Your task to perform on an android device: Show me productivity apps on the Play Store Image 0: 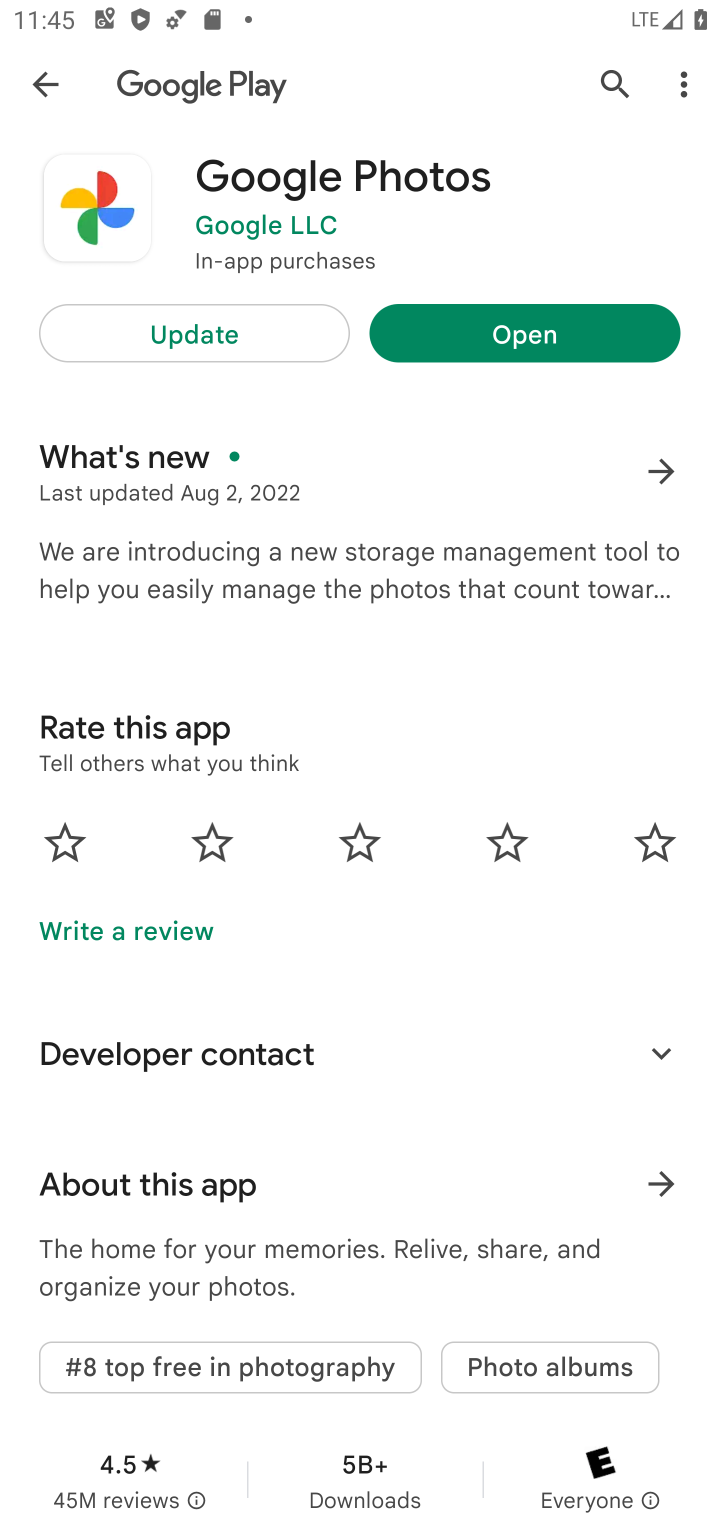
Step 0: press back button
Your task to perform on an android device: Show me productivity apps on the Play Store Image 1: 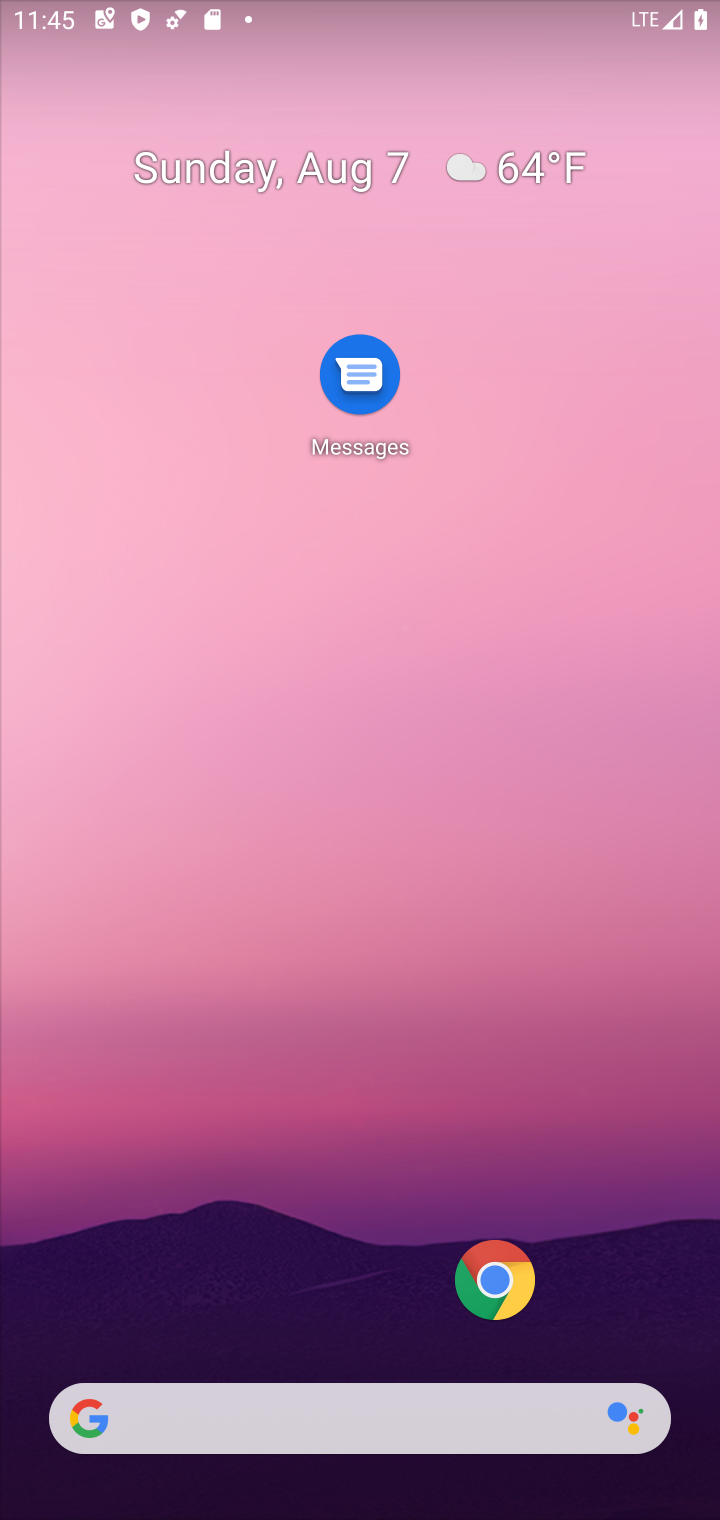
Step 1: drag from (317, 1342) to (470, 106)
Your task to perform on an android device: Show me productivity apps on the Play Store Image 2: 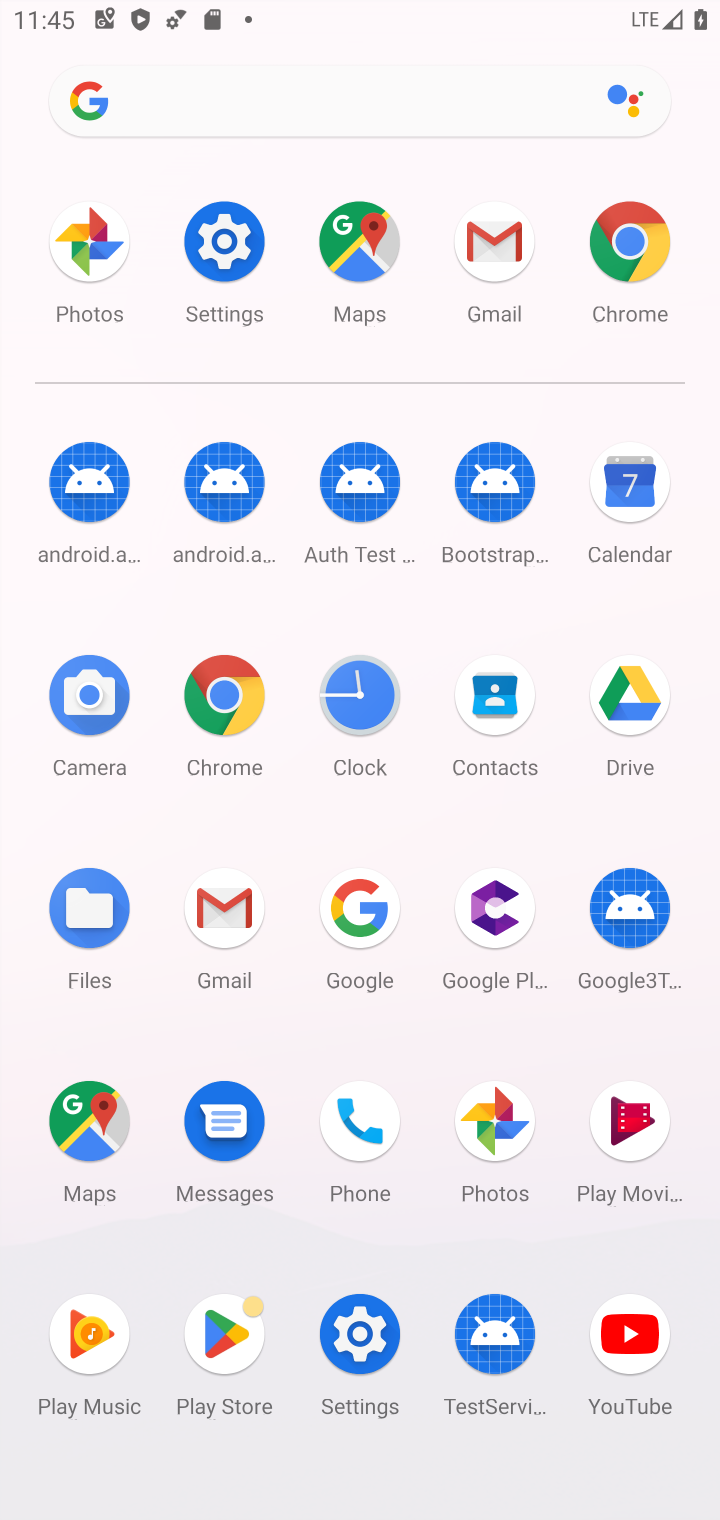
Step 2: click (236, 1356)
Your task to perform on an android device: Show me productivity apps on the Play Store Image 3: 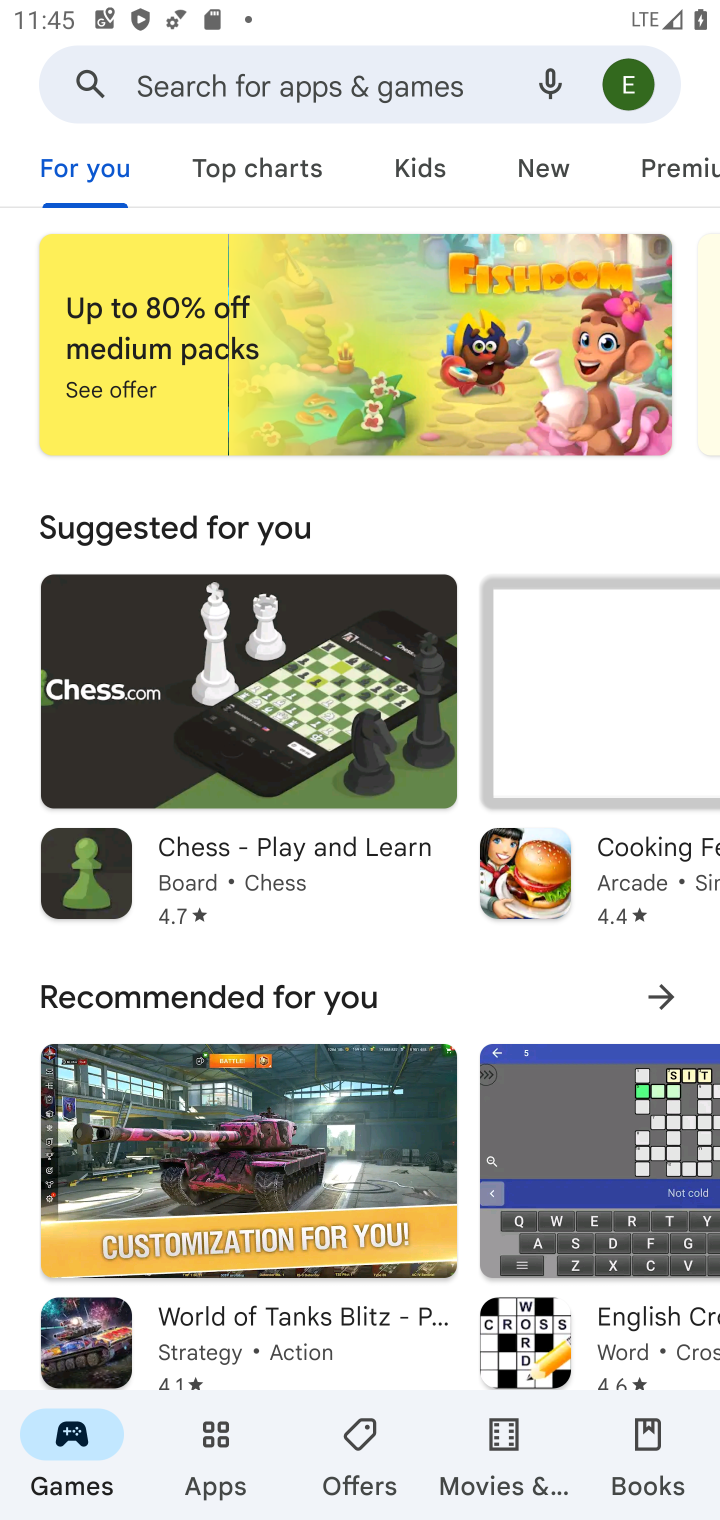
Step 3: click (226, 1433)
Your task to perform on an android device: Show me productivity apps on the Play Store Image 4: 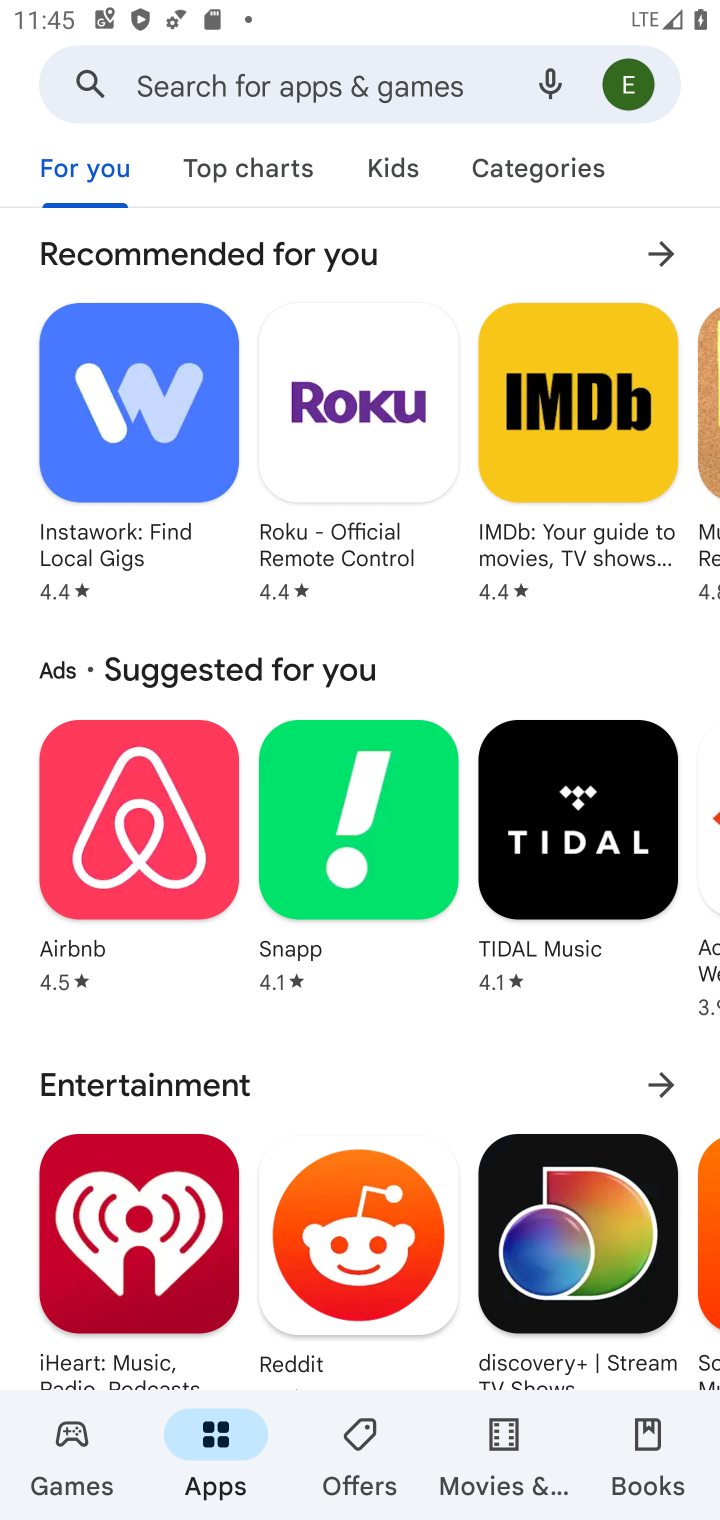
Step 4: drag from (521, 467) to (338, 501)
Your task to perform on an android device: Show me productivity apps on the Play Store Image 5: 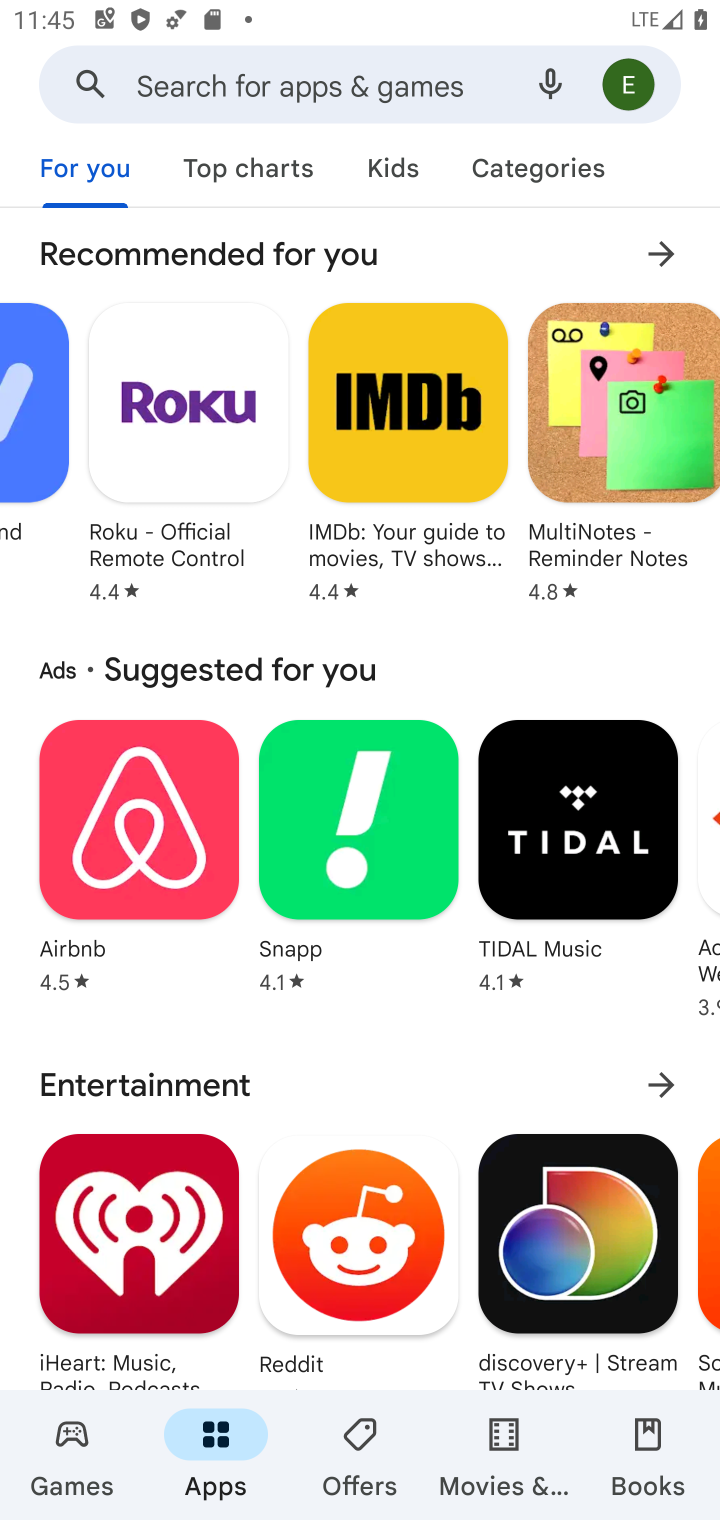
Step 5: drag from (326, 1108) to (510, 254)
Your task to perform on an android device: Show me productivity apps on the Play Store Image 6: 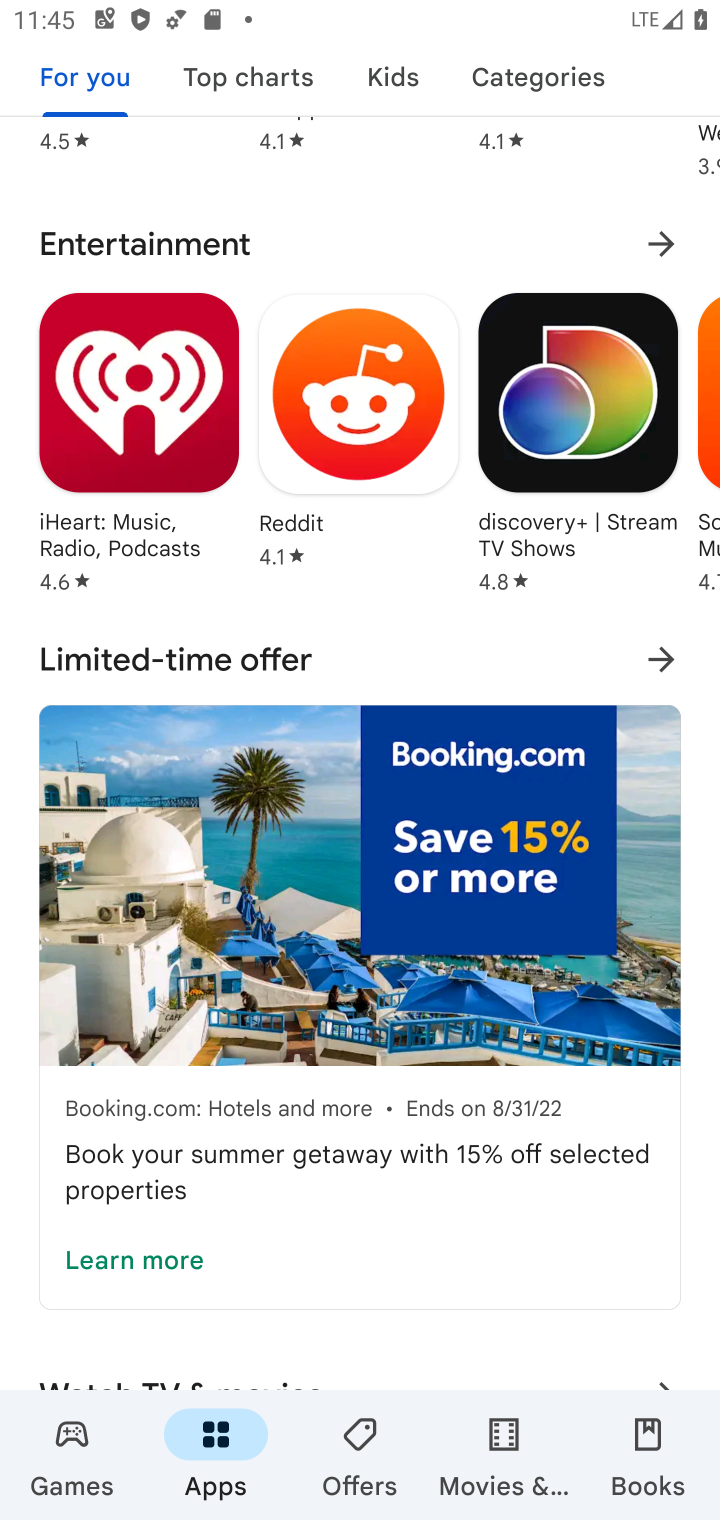
Step 6: drag from (198, 1271) to (359, 1387)
Your task to perform on an android device: Show me productivity apps on the Play Store Image 7: 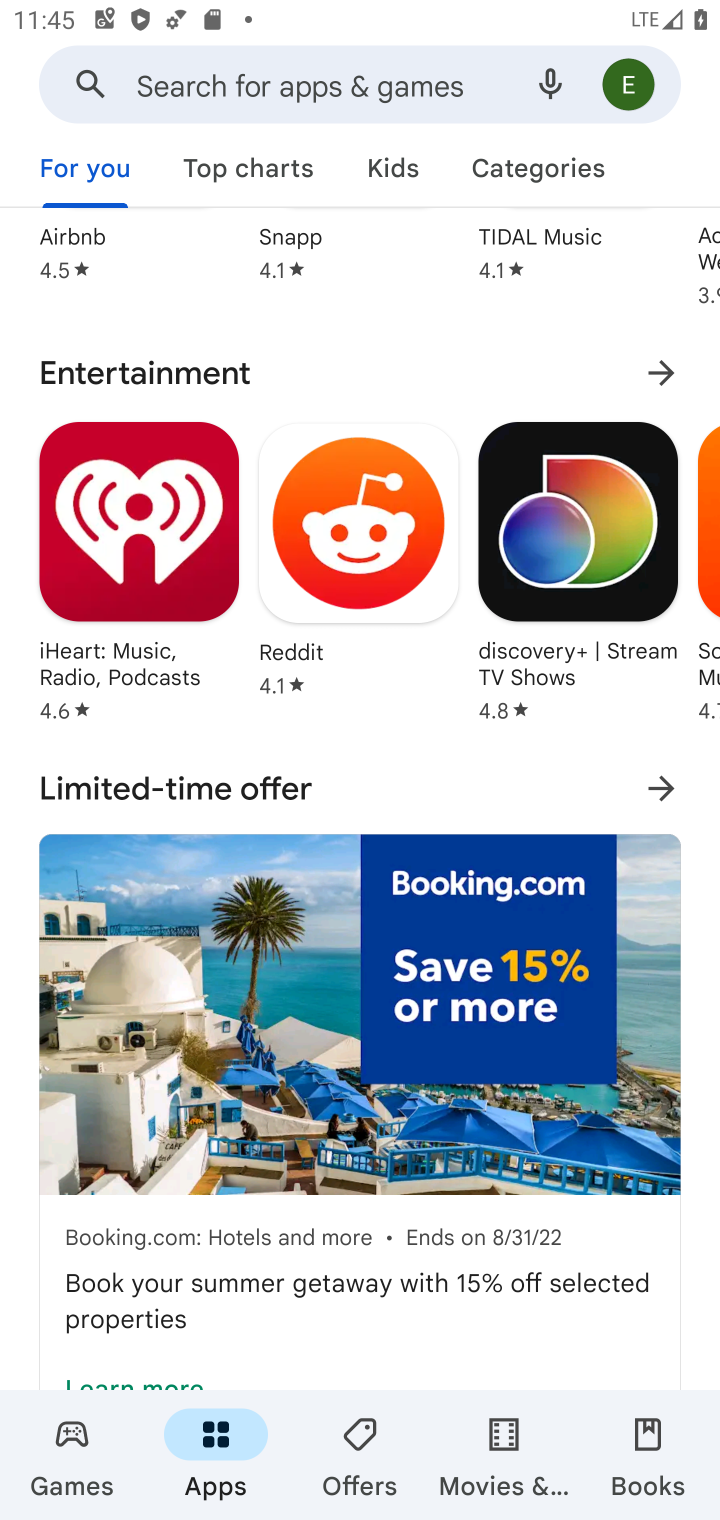
Step 7: drag from (354, 785) to (282, 1373)
Your task to perform on an android device: Show me productivity apps on the Play Store Image 8: 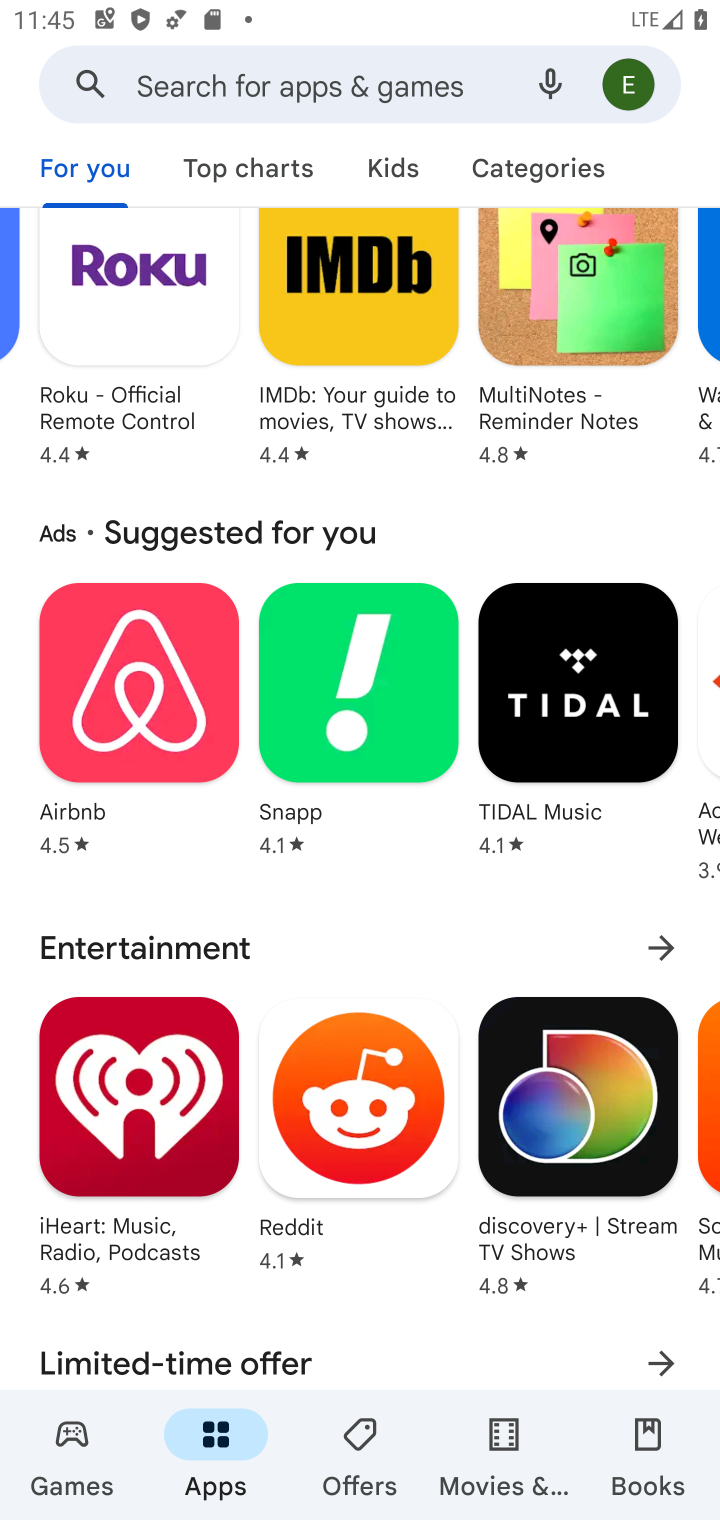
Step 8: drag from (277, 532) to (260, 1359)
Your task to perform on an android device: Show me productivity apps on the Play Store Image 9: 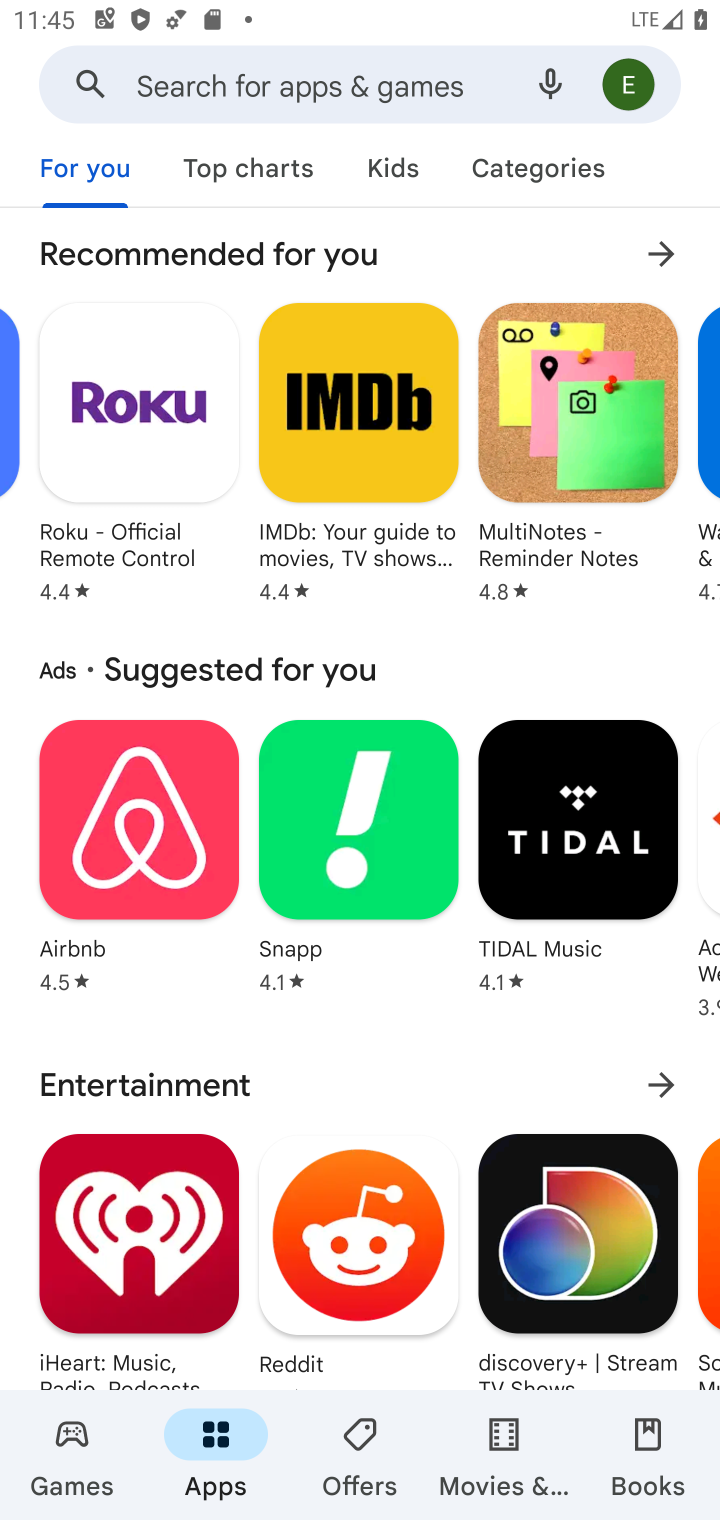
Step 9: drag from (321, 768) to (514, 395)
Your task to perform on an android device: Show me productivity apps on the Play Store Image 10: 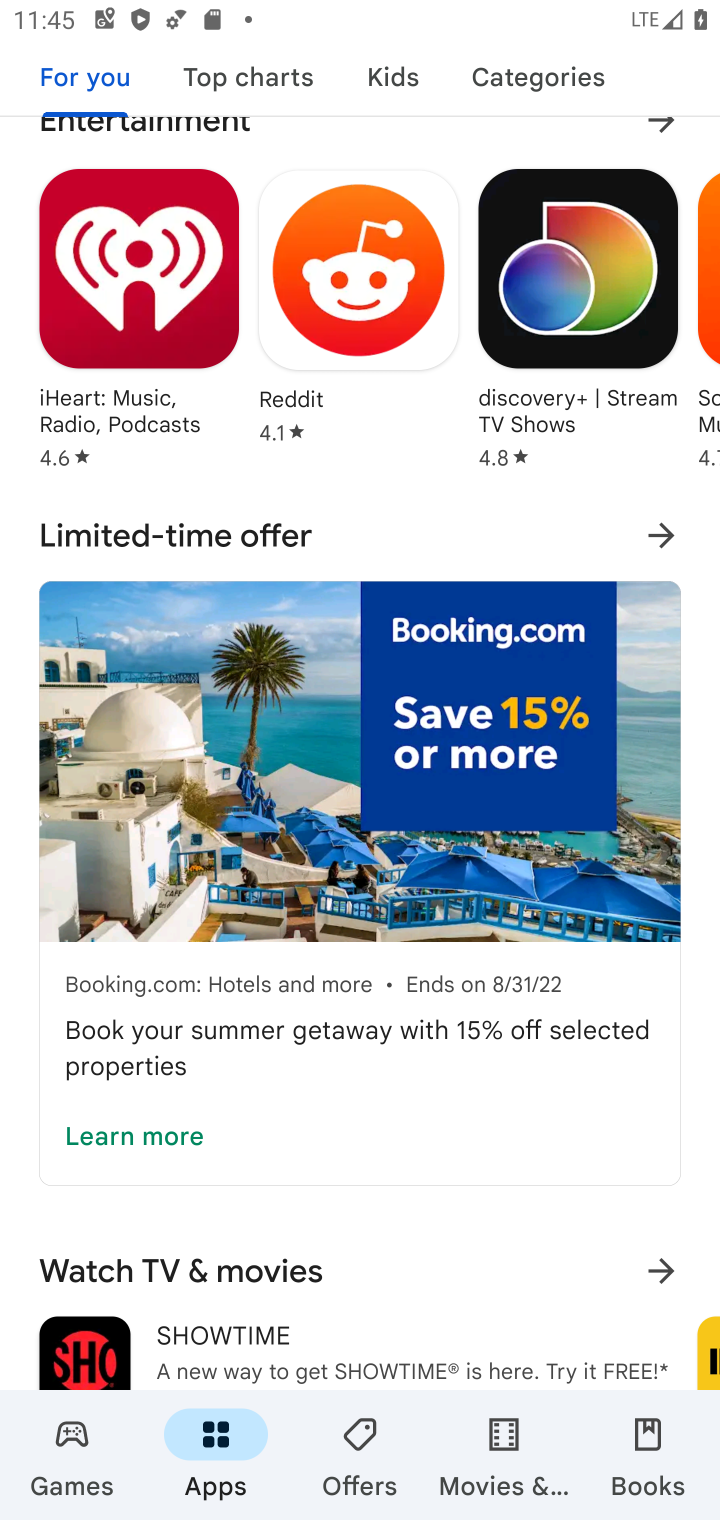
Step 10: click (616, 60)
Your task to perform on an android device: Show me productivity apps on the Play Store Image 11: 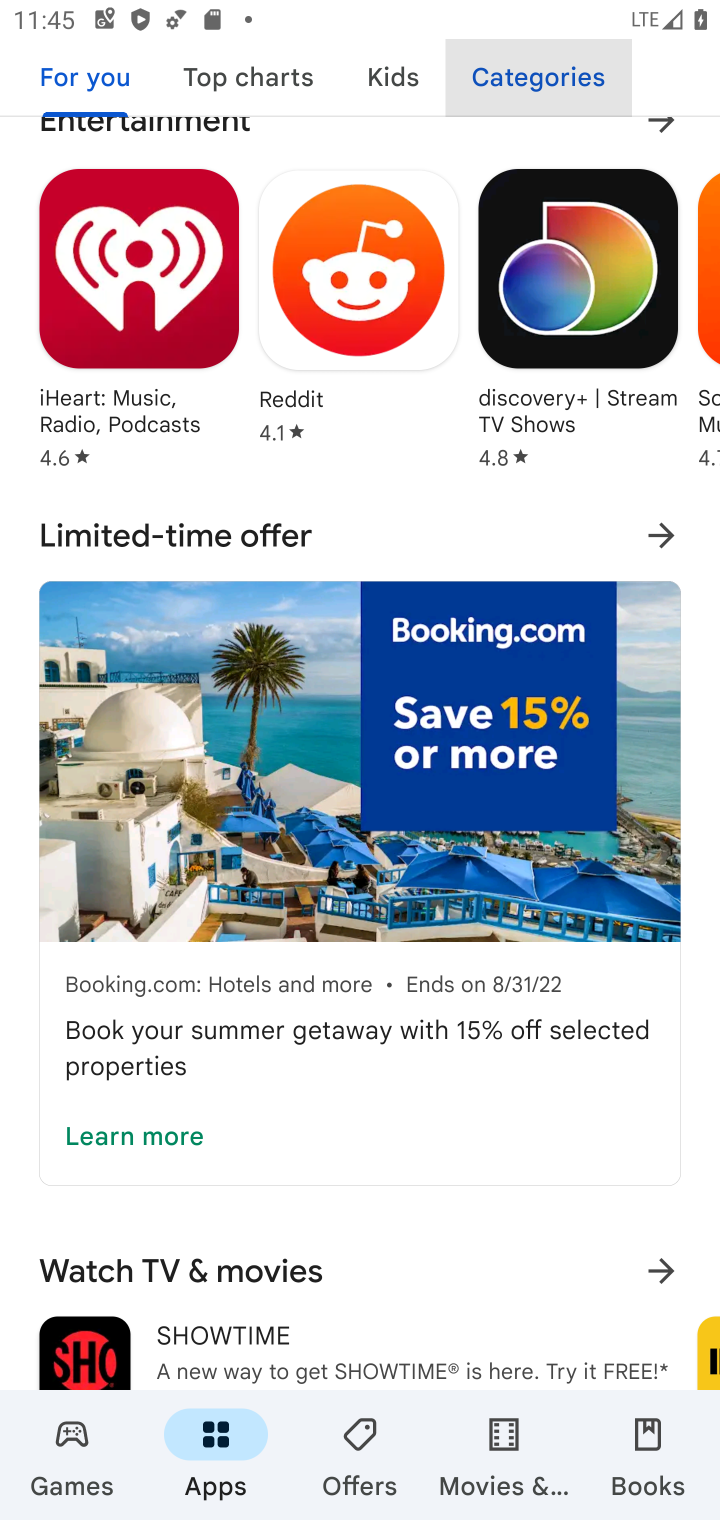
Step 11: drag from (377, 1310) to (544, 103)
Your task to perform on an android device: Show me productivity apps on the Play Store Image 12: 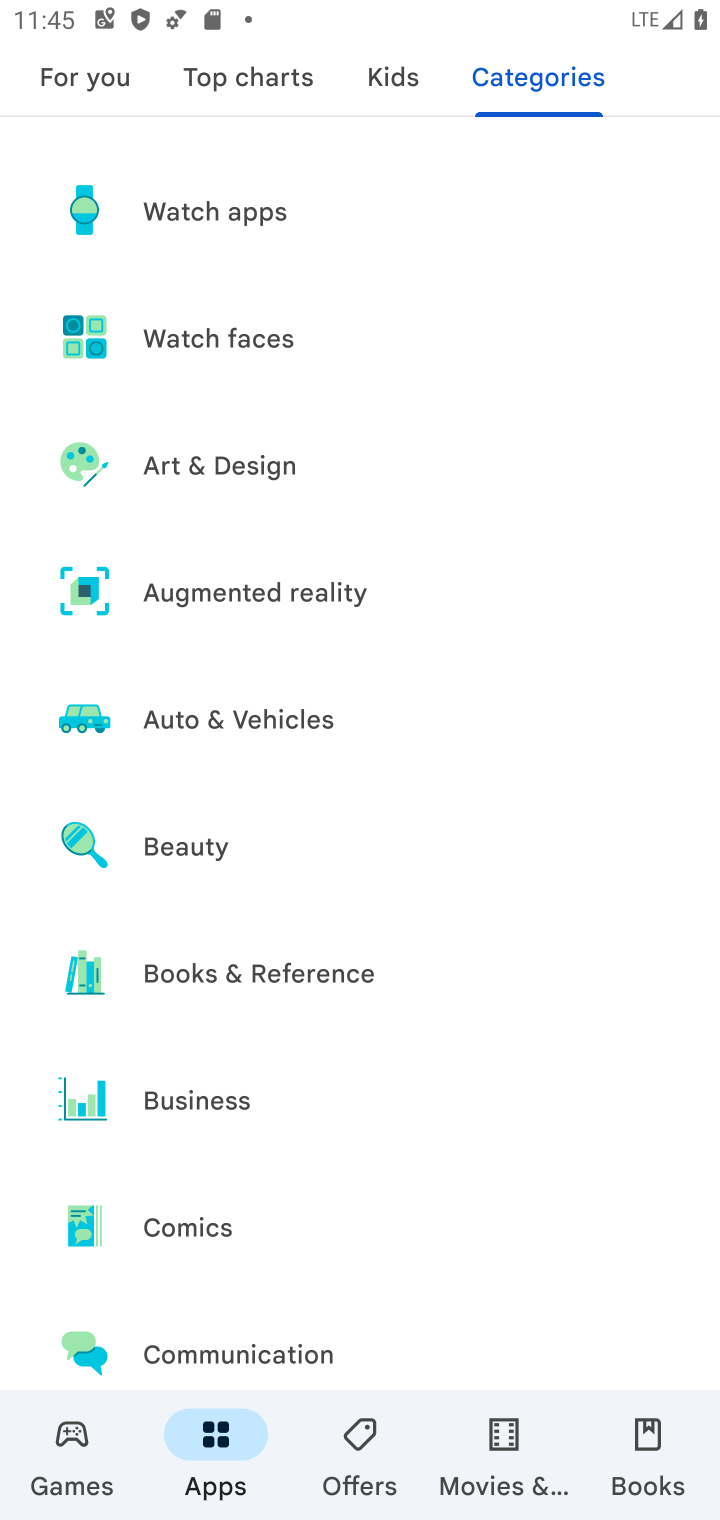
Step 12: click (104, 1473)
Your task to perform on an android device: Show me productivity apps on the Play Store Image 13: 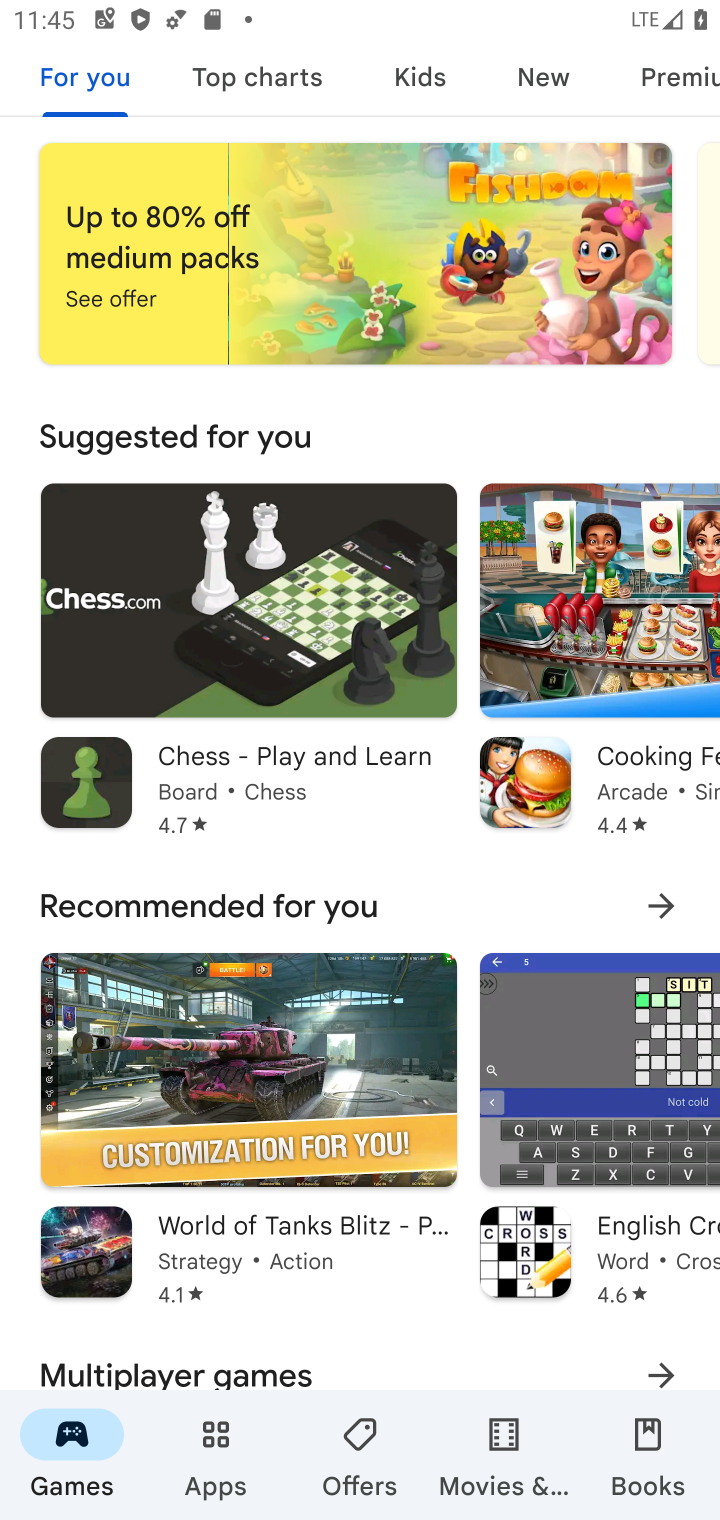
Step 13: drag from (461, 900) to (632, 183)
Your task to perform on an android device: Show me productivity apps on the Play Store Image 14: 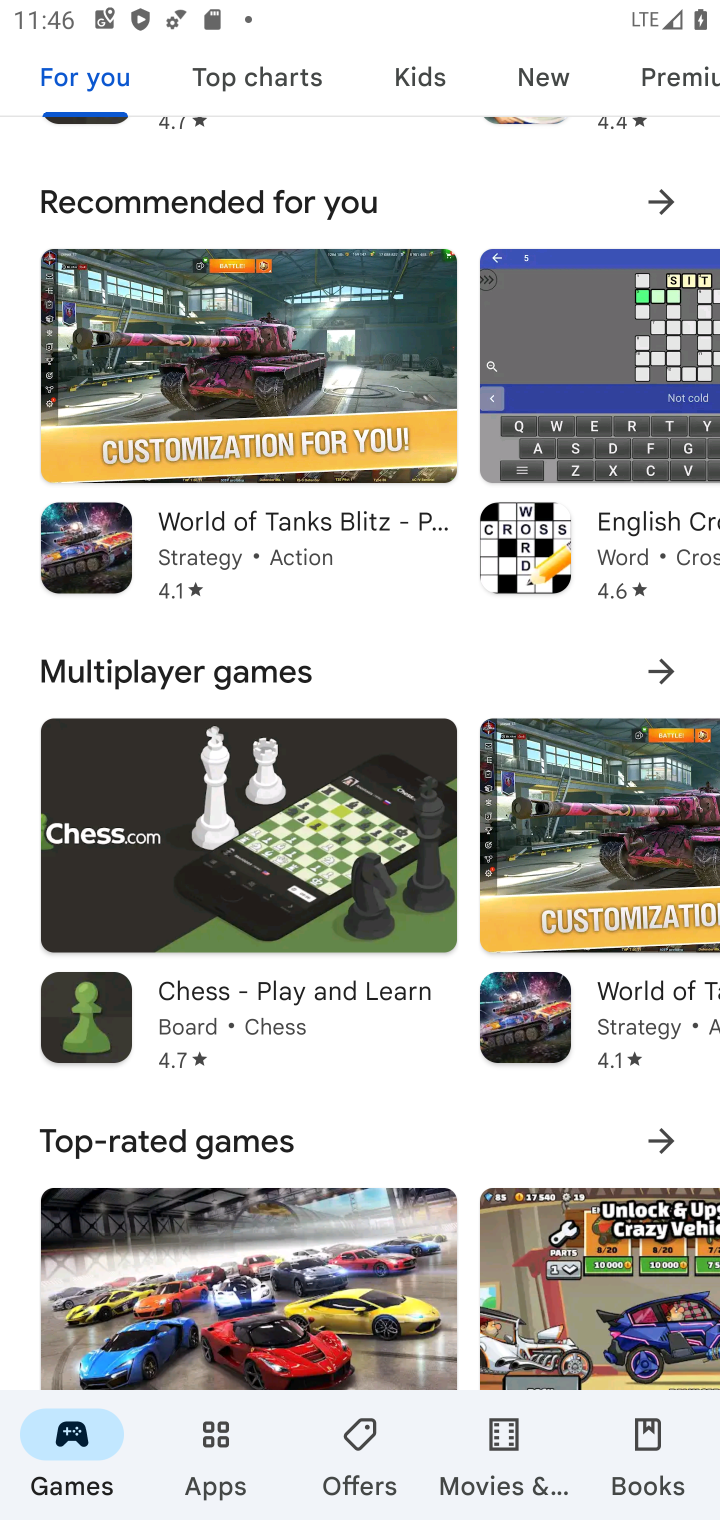
Step 14: drag from (352, 1185) to (421, 129)
Your task to perform on an android device: Show me productivity apps on the Play Store Image 15: 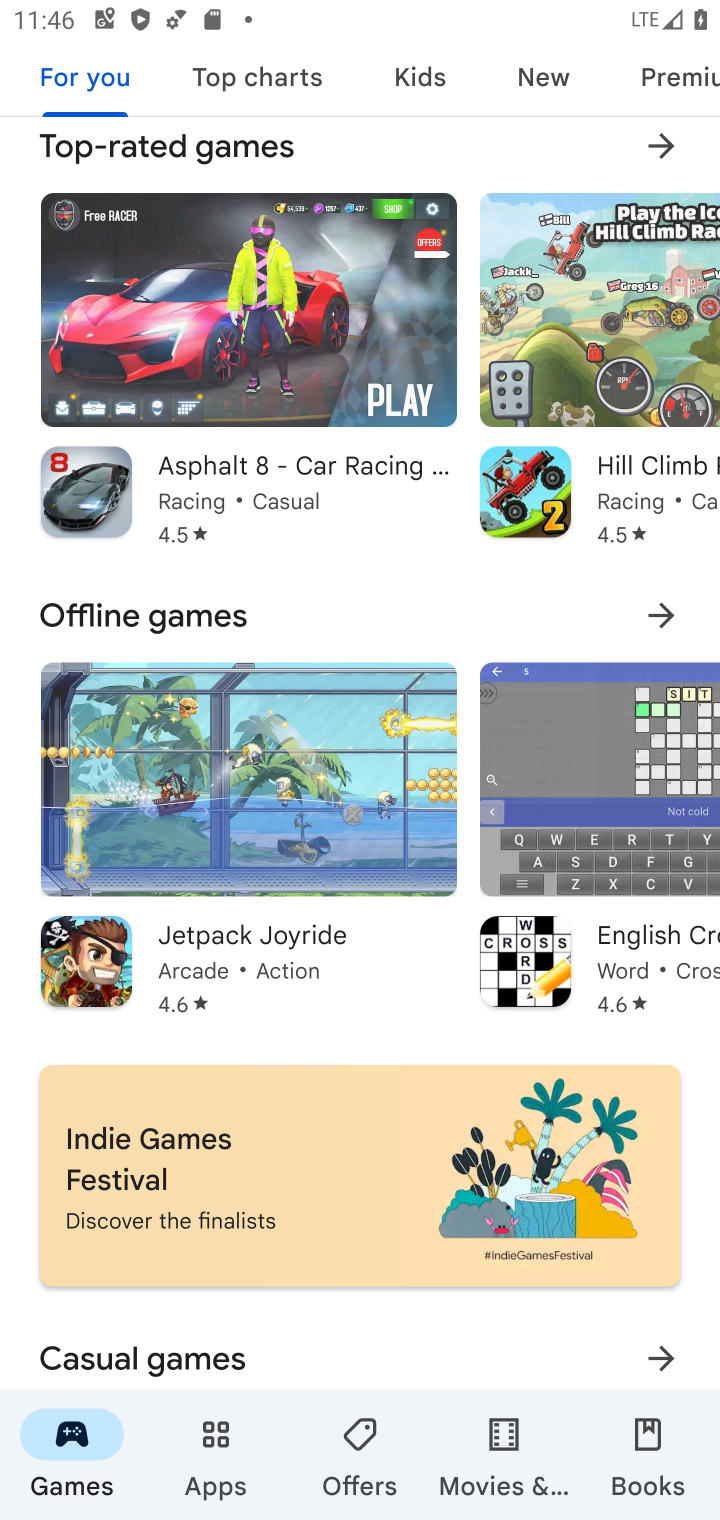
Step 15: drag from (429, 1188) to (609, 137)
Your task to perform on an android device: Show me productivity apps on the Play Store Image 16: 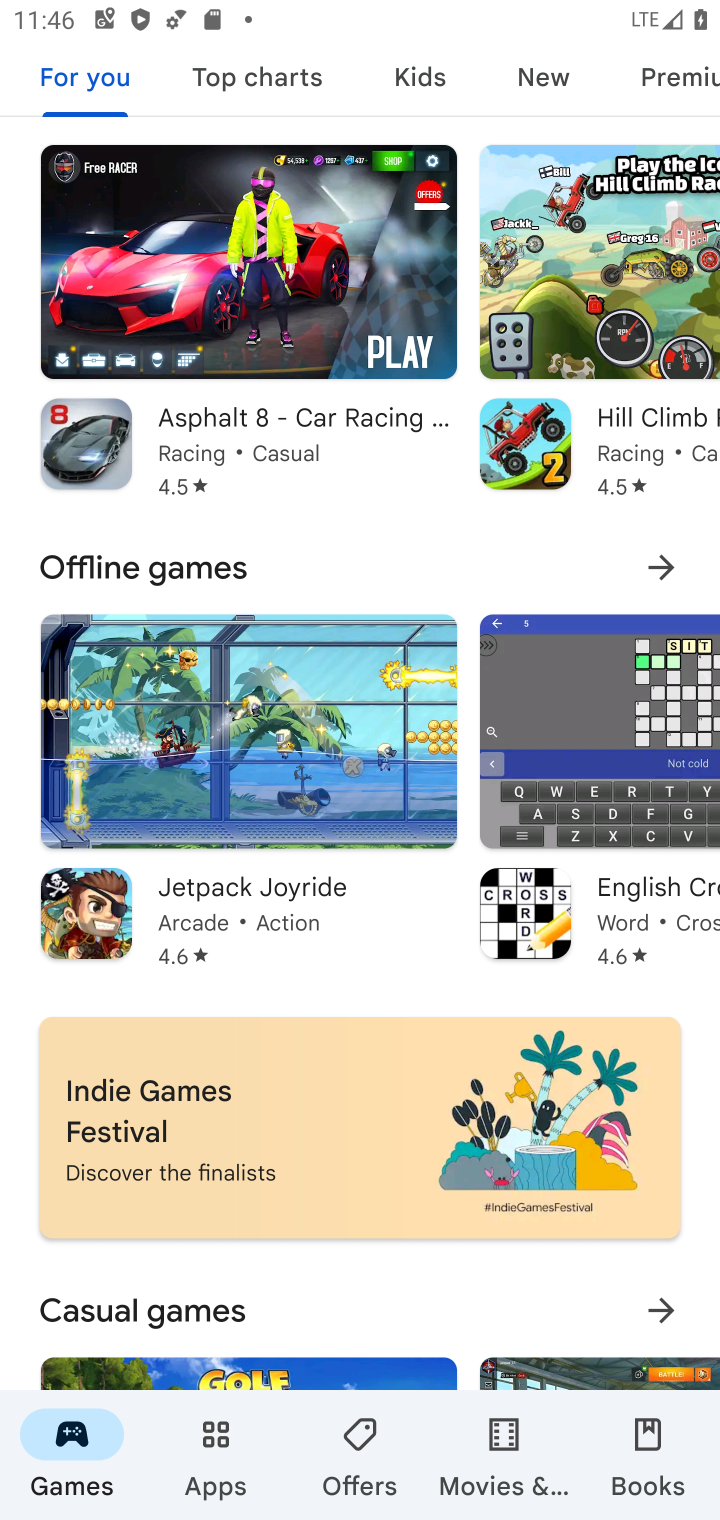
Step 16: drag from (423, 1305) to (558, 167)
Your task to perform on an android device: Show me productivity apps on the Play Store Image 17: 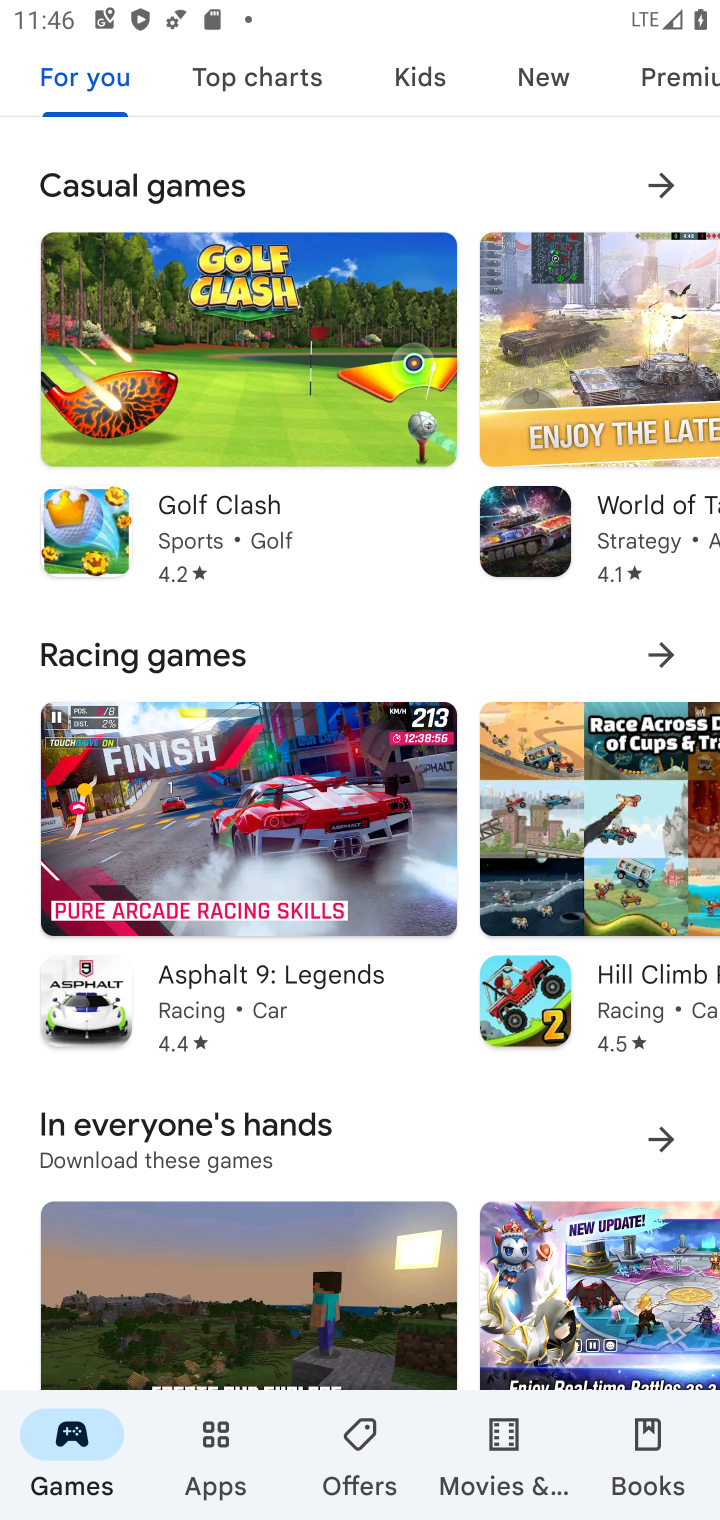
Step 17: click (187, 1517)
Your task to perform on an android device: Show me productivity apps on the Play Store Image 18: 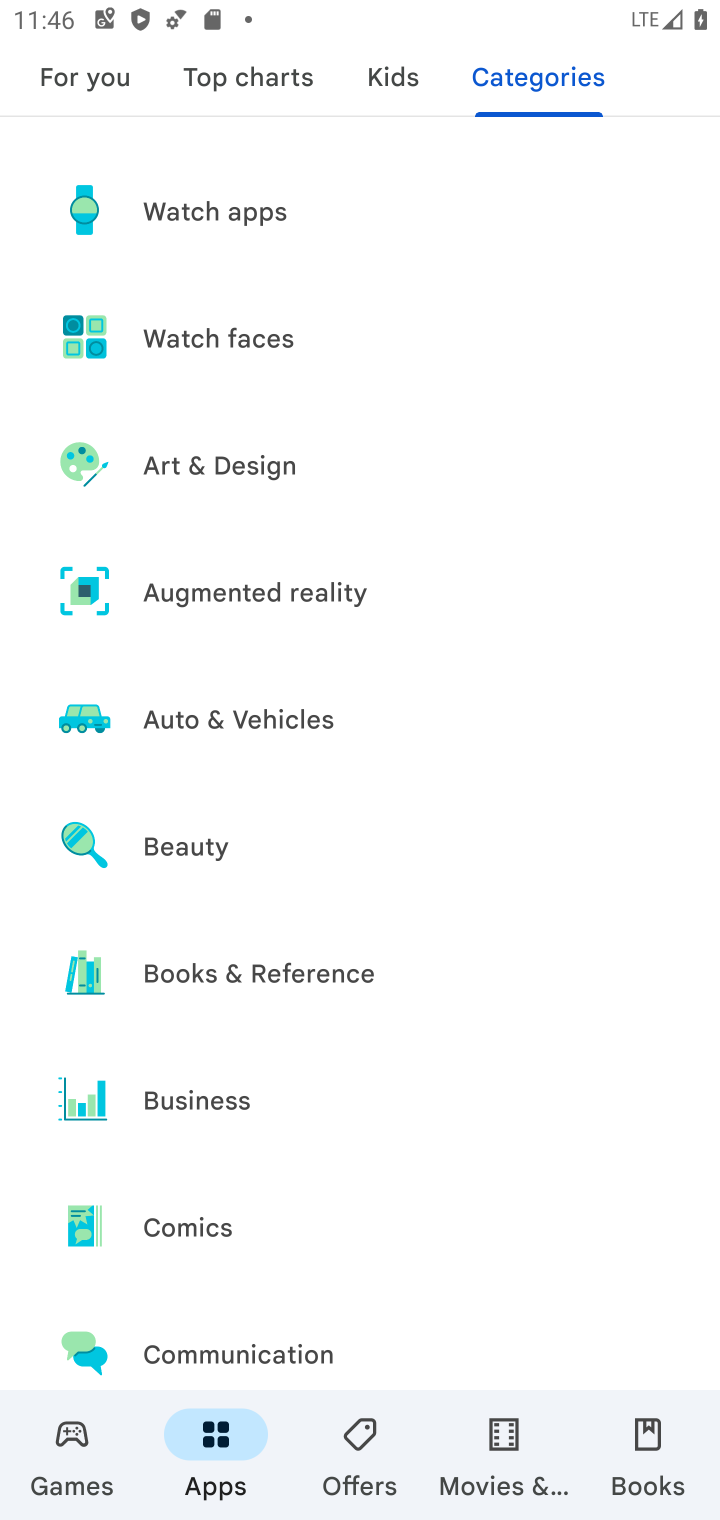
Step 18: click (206, 1478)
Your task to perform on an android device: Show me productivity apps on the Play Store Image 19: 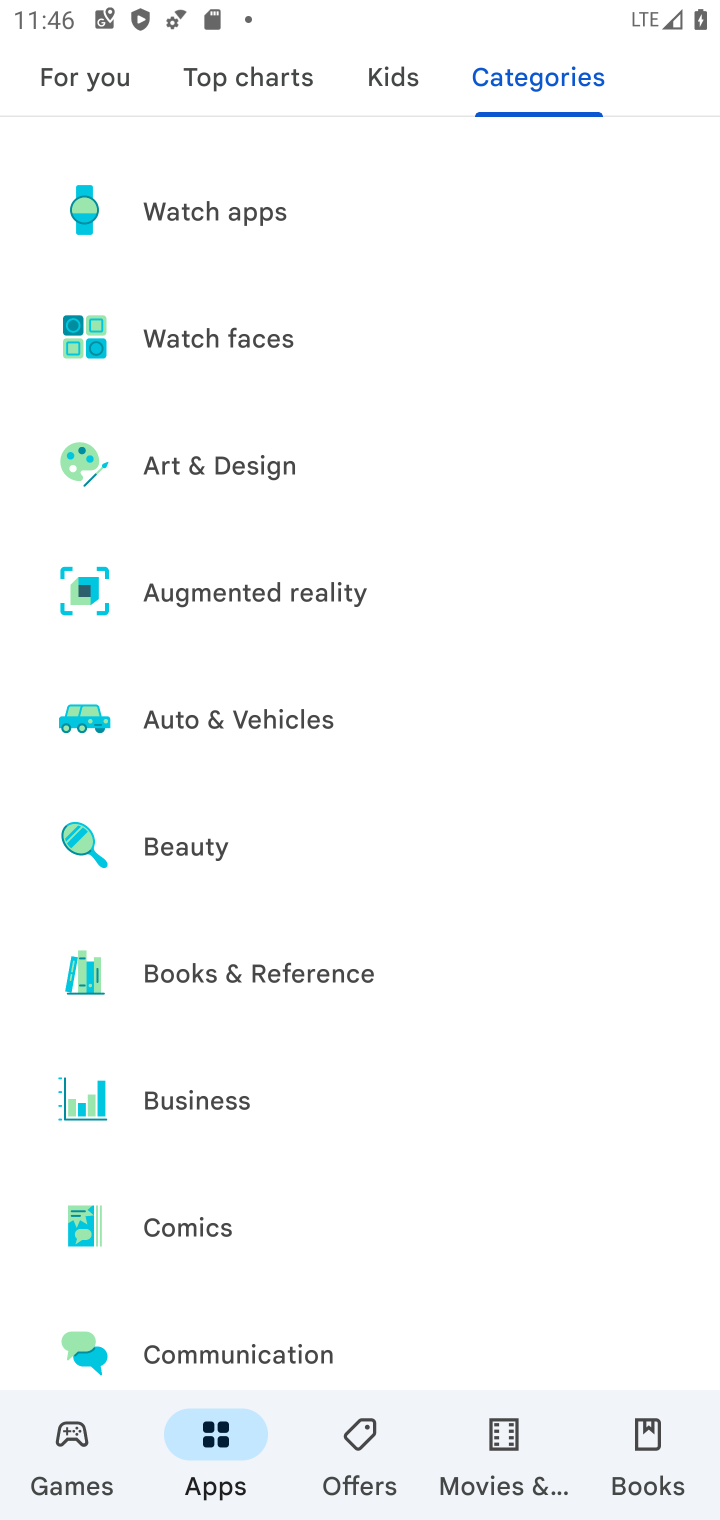
Step 19: drag from (351, 1278) to (534, 192)
Your task to perform on an android device: Show me productivity apps on the Play Store Image 20: 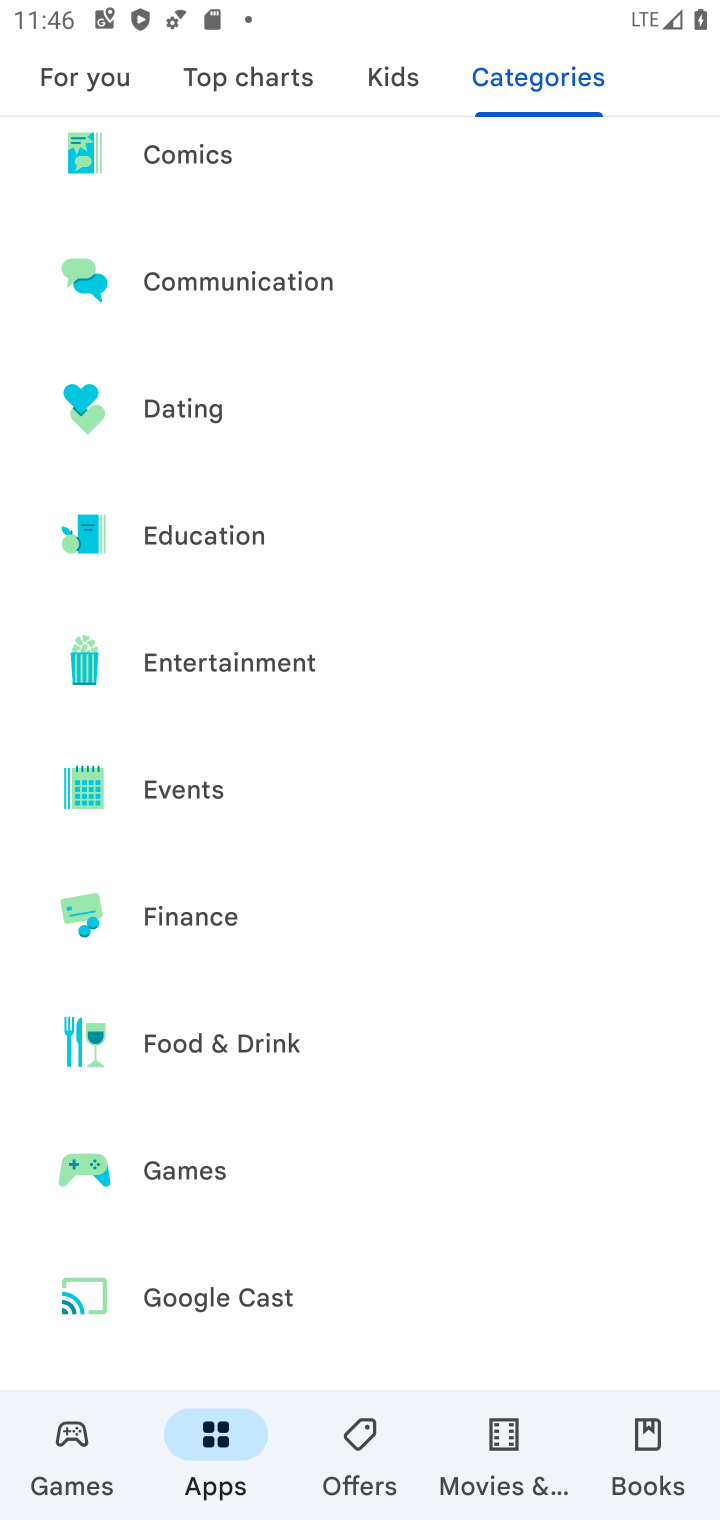
Step 20: click (211, 1453)
Your task to perform on an android device: Show me productivity apps on the Play Store Image 21: 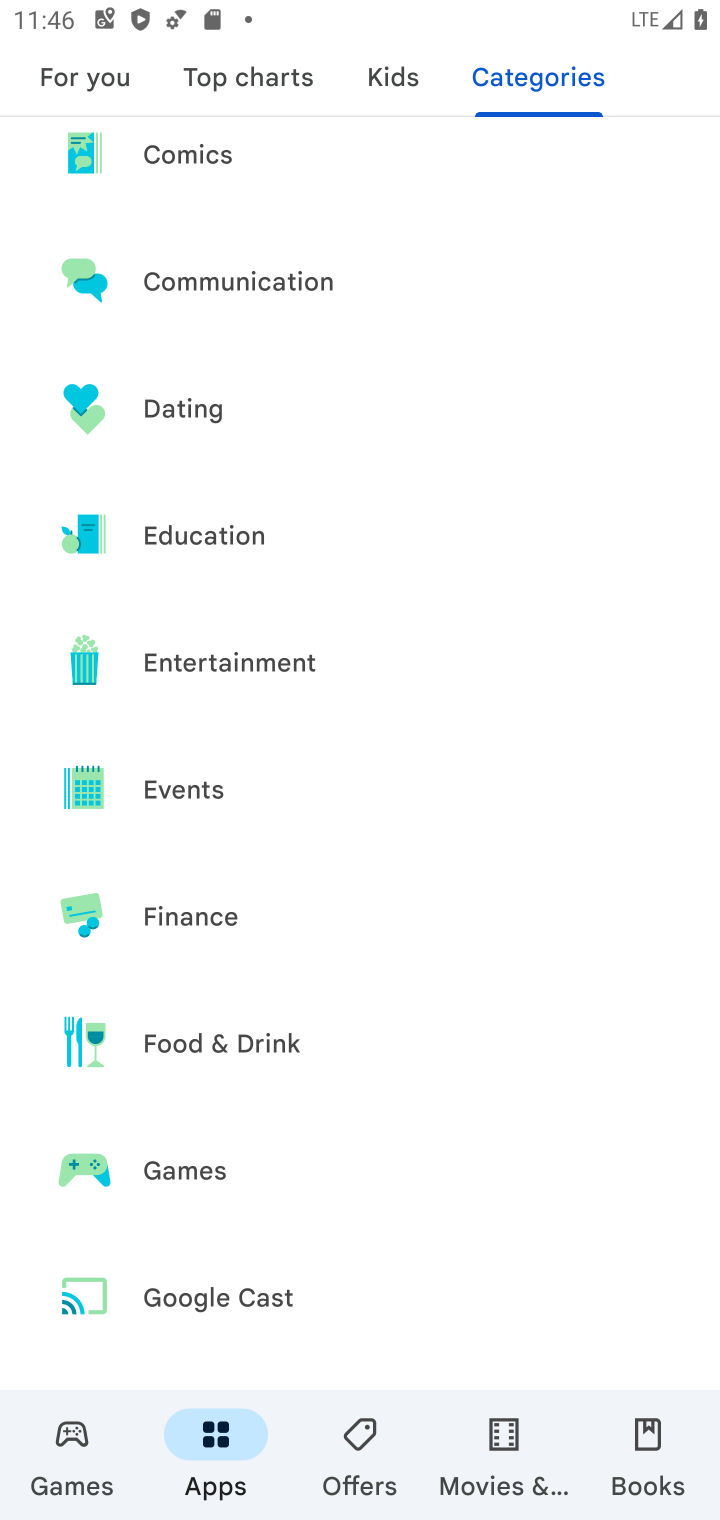
Step 21: click (70, 1459)
Your task to perform on an android device: Show me productivity apps on the Play Store Image 22: 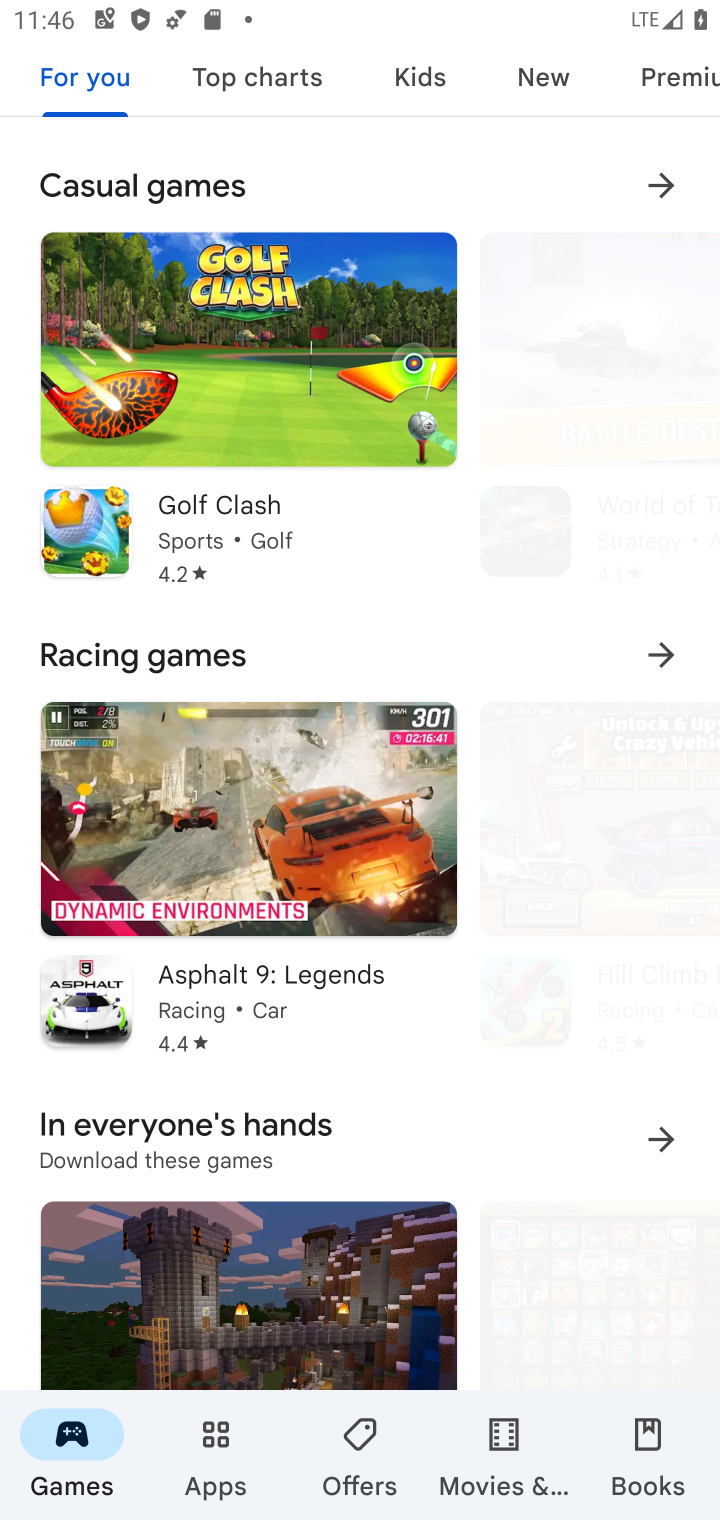
Step 22: click (207, 1462)
Your task to perform on an android device: Show me productivity apps on the Play Store Image 23: 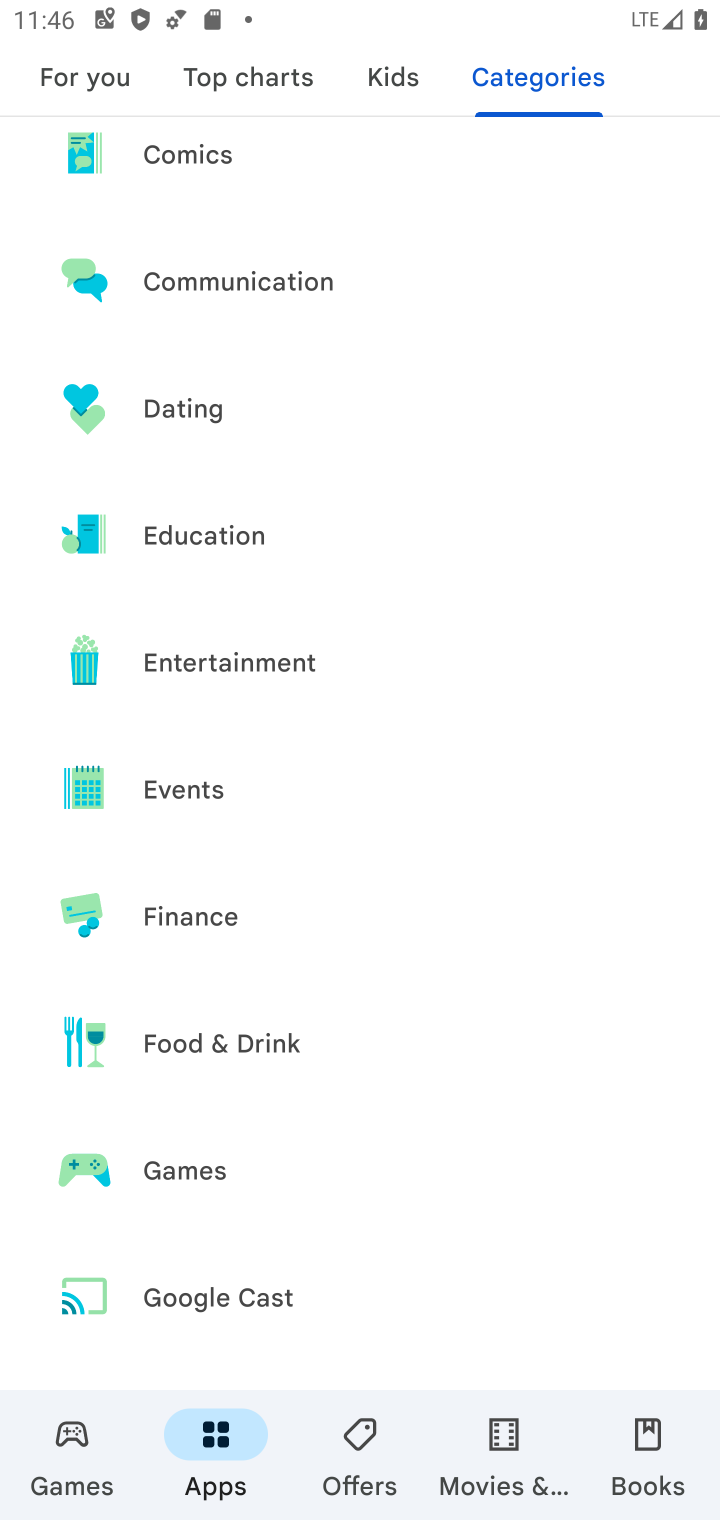
Step 23: click (68, 54)
Your task to perform on an android device: Show me productivity apps on the Play Store Image 24: 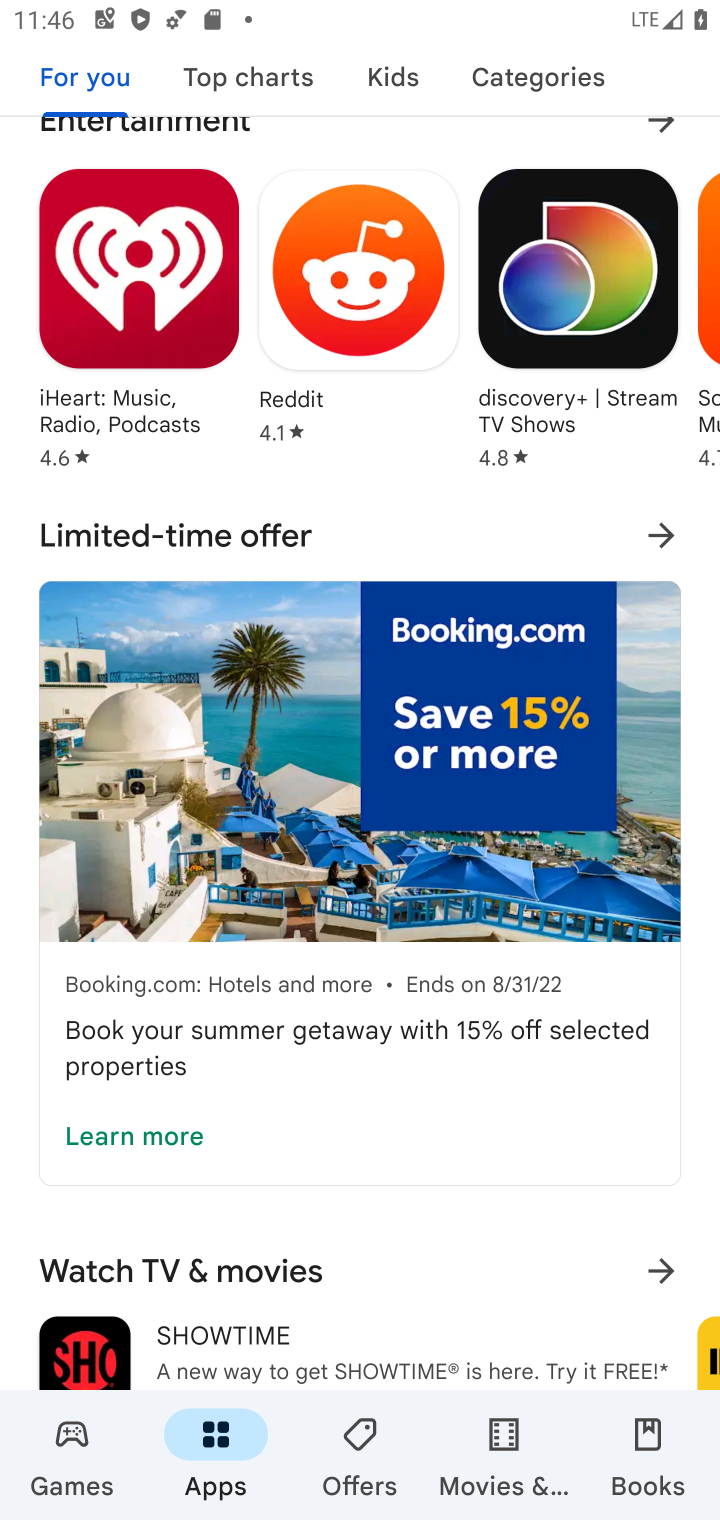
Step 24: drag from (410, 890) to (519, 143)
Your task to perform on an android device: Show me productivity apps on the Play Store Image 25: 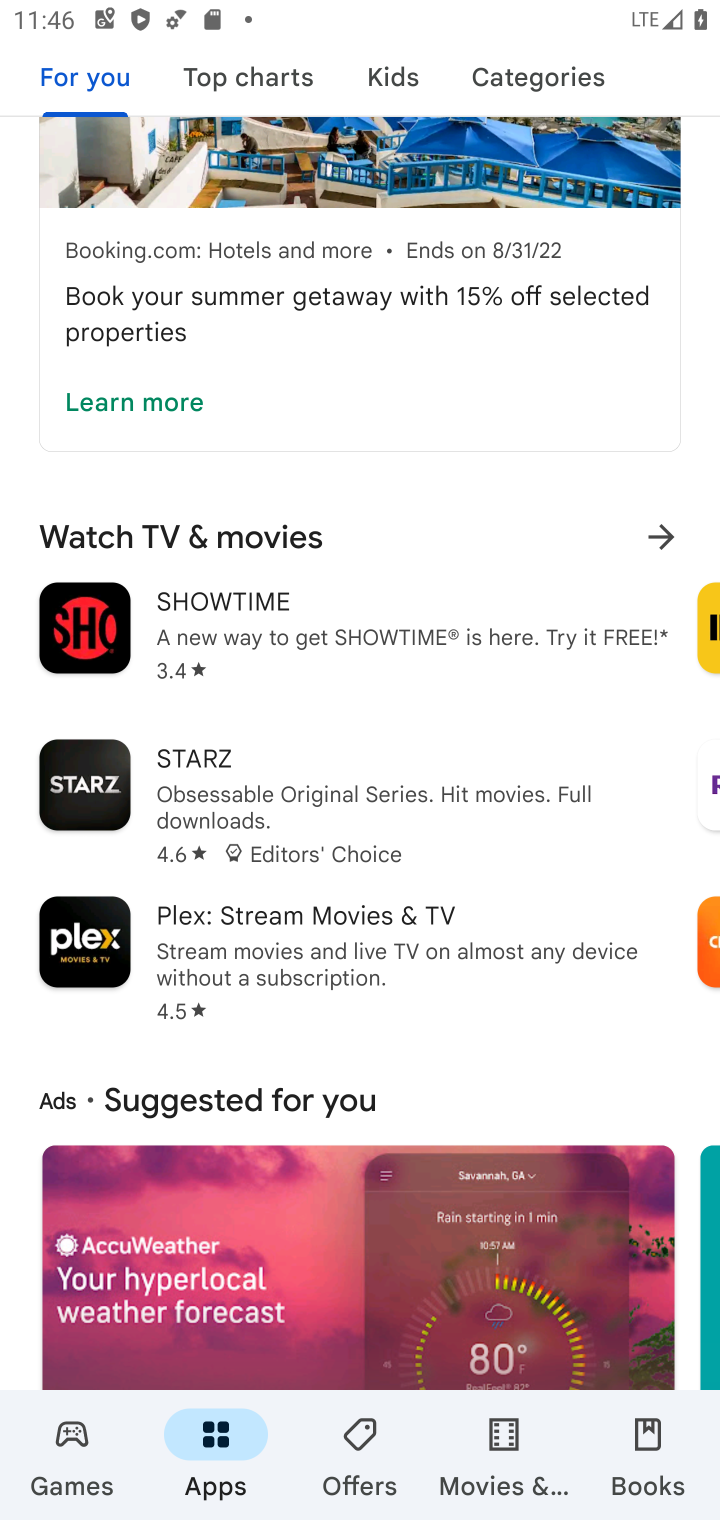
Step 25: drag from (422, 1212) to (613, 1)
Your task to perform on an android device: Show me productivity apps on the Play Store Image 26: 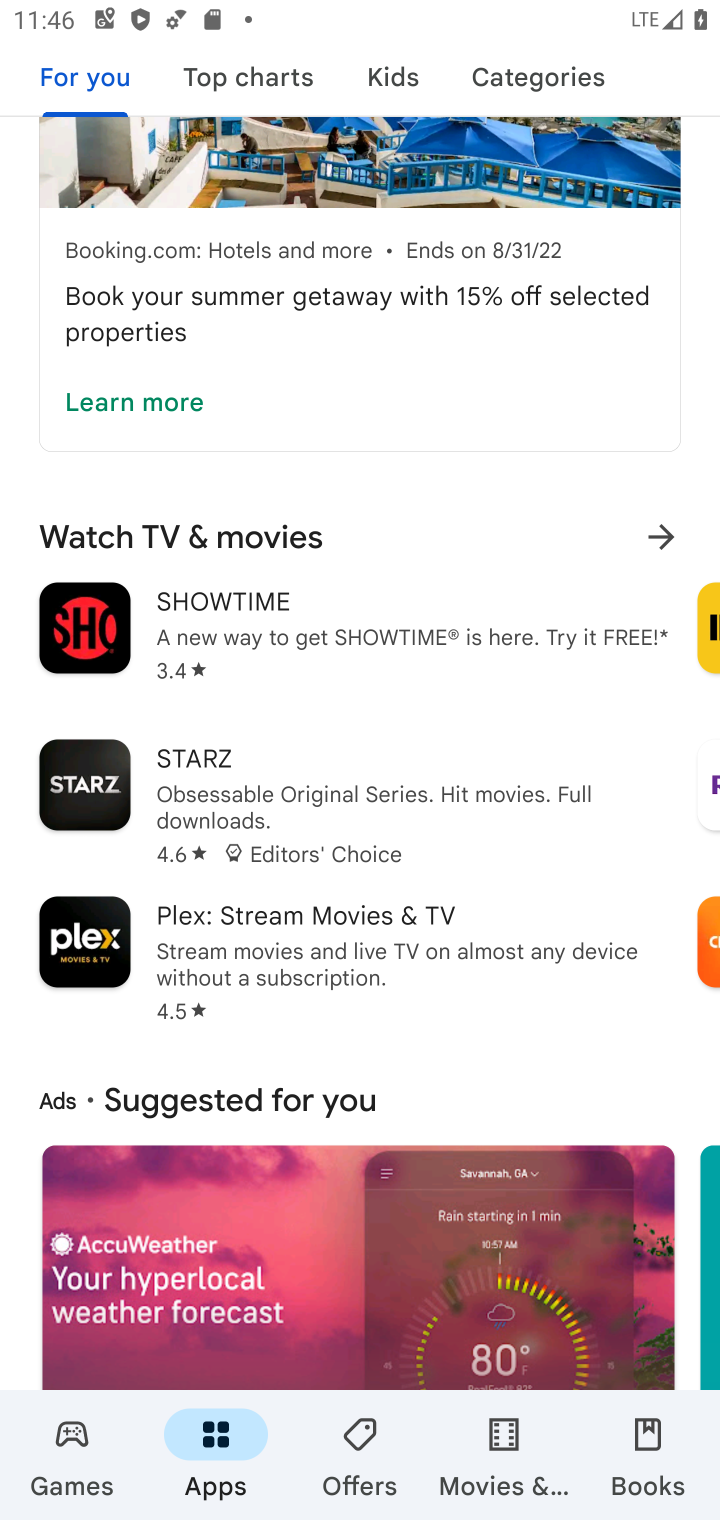
Step 26: drag from (358, 1273) to (492, 191)
Your task to perform on an android device: Show me productivity apps on the Play Store Image 27: 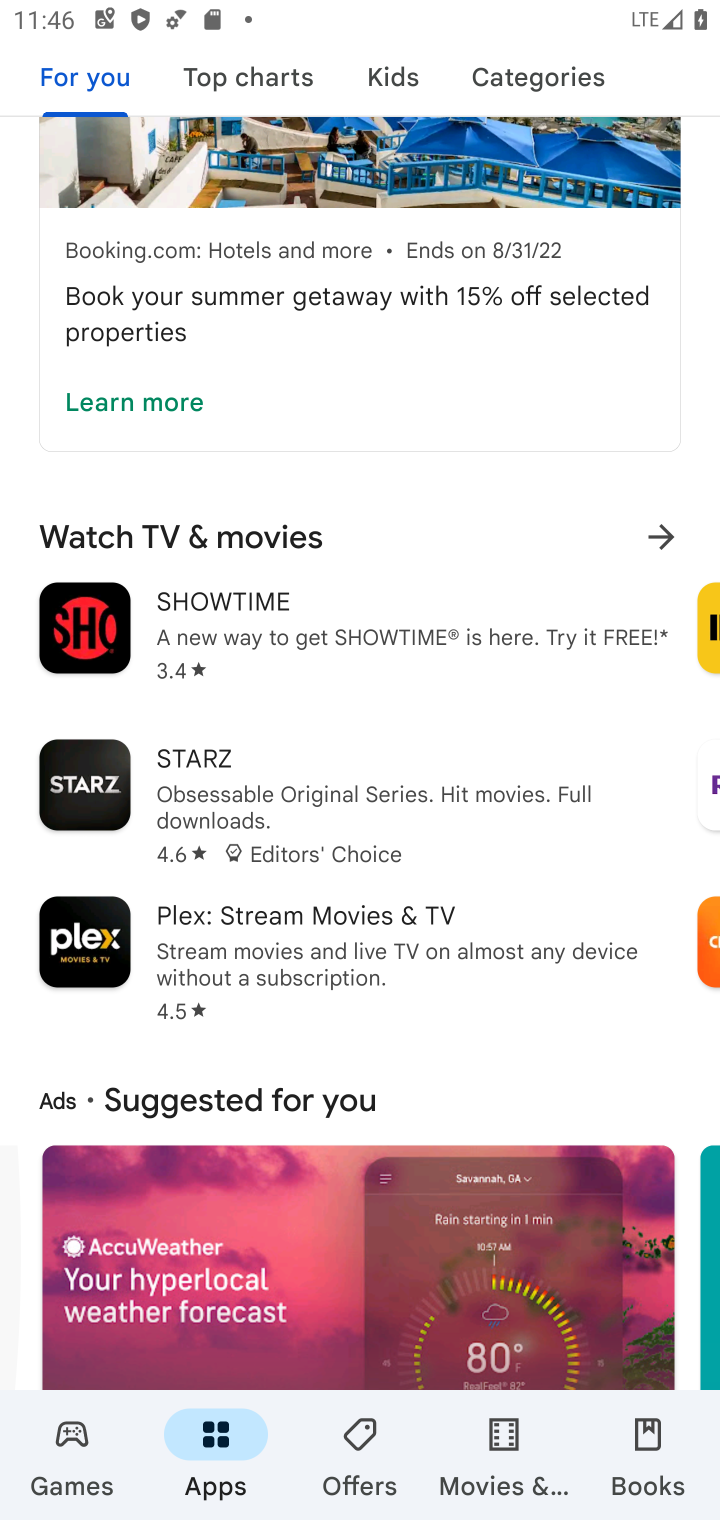
Step 27: drag from (428, 711) to (447, 1518)
Your task to perform on an android device: Show me productivity apps on the Play Store Image 28: 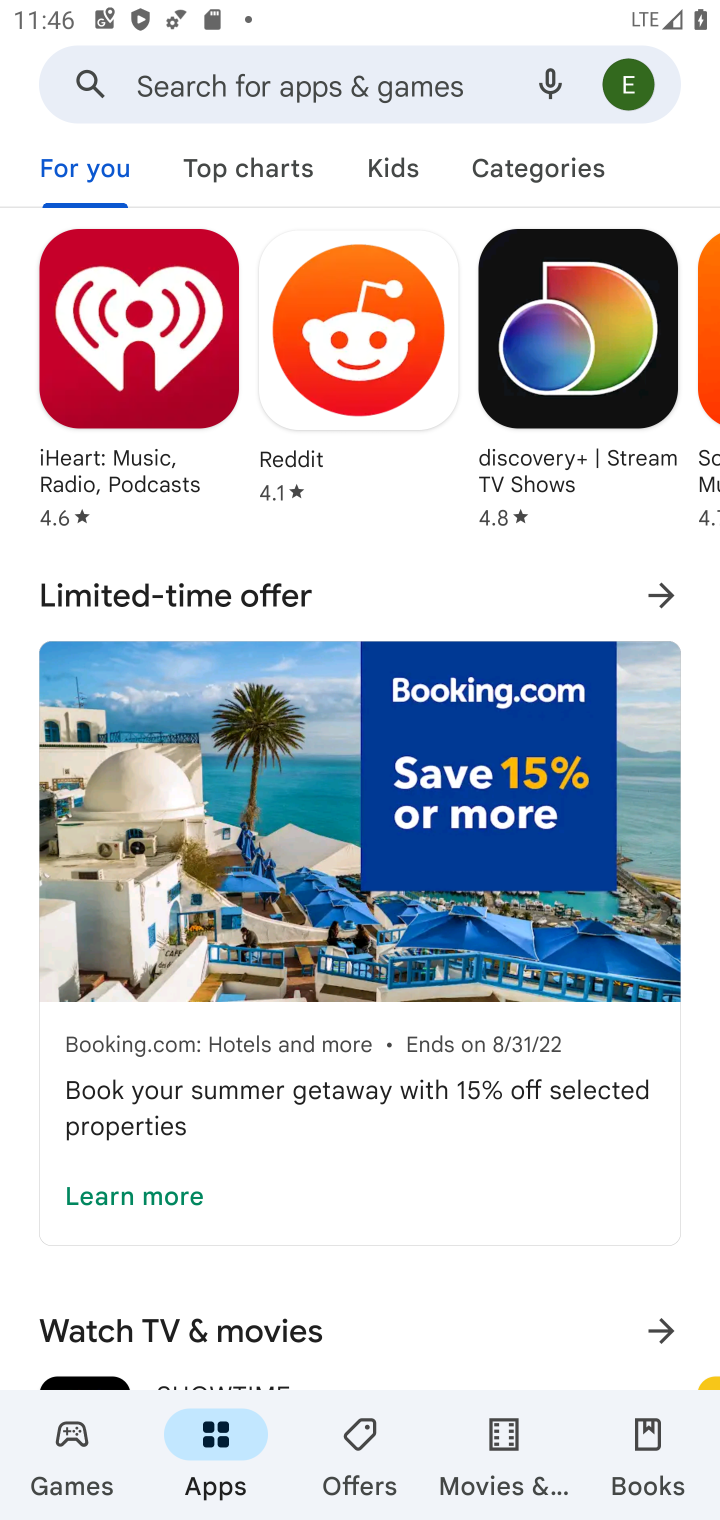
Step 28: drag from (412, 493) to (392, 1517)
Your task to perform on an android device: Show me productivity apps on the Play Store Image 29: 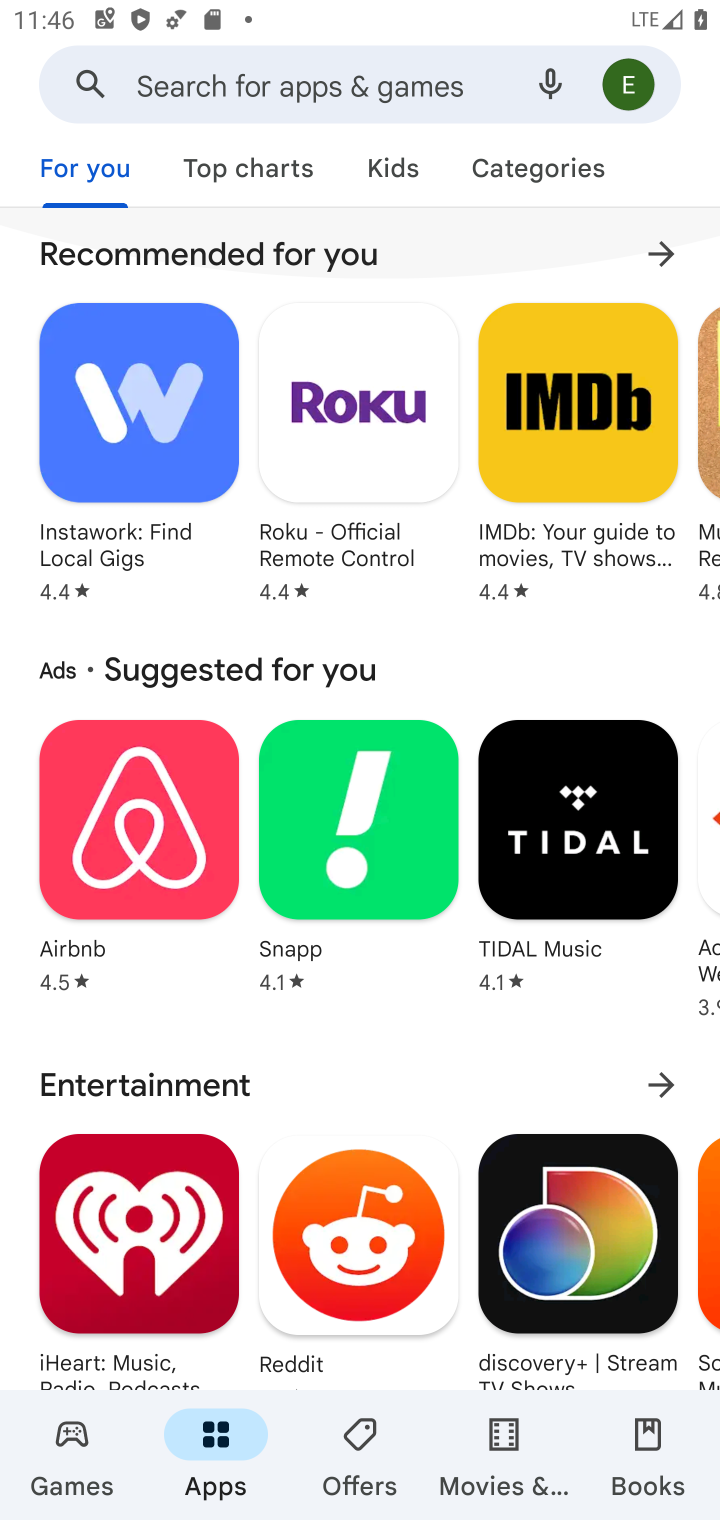
Step 29: drag from (467, 502) to (427, 1462)
Your task to perform on an android device: Show me productivity apps on the Play Store Image 30: 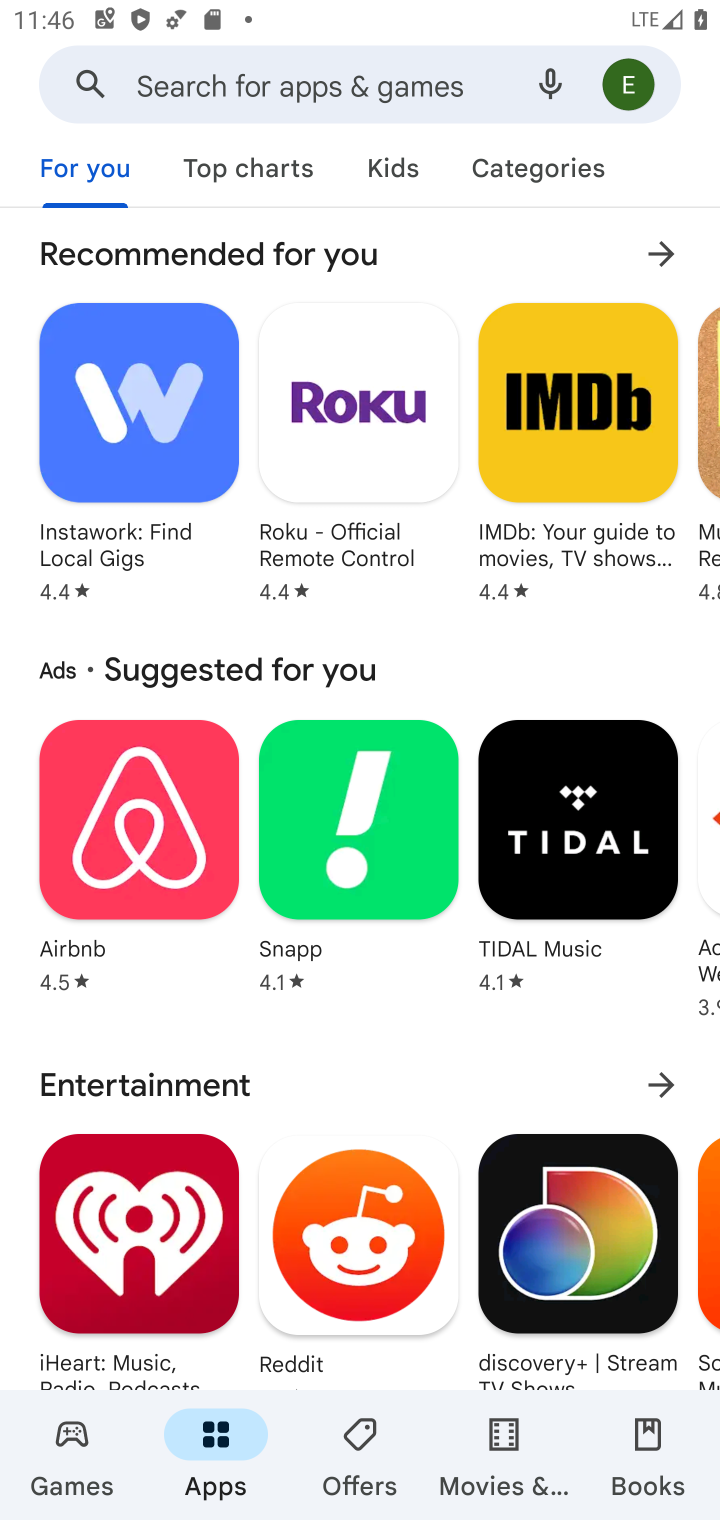
Step 30: click (245, 1445)
Your task to perform on an android device: Show me productivity apps on the Play Store Image 31: 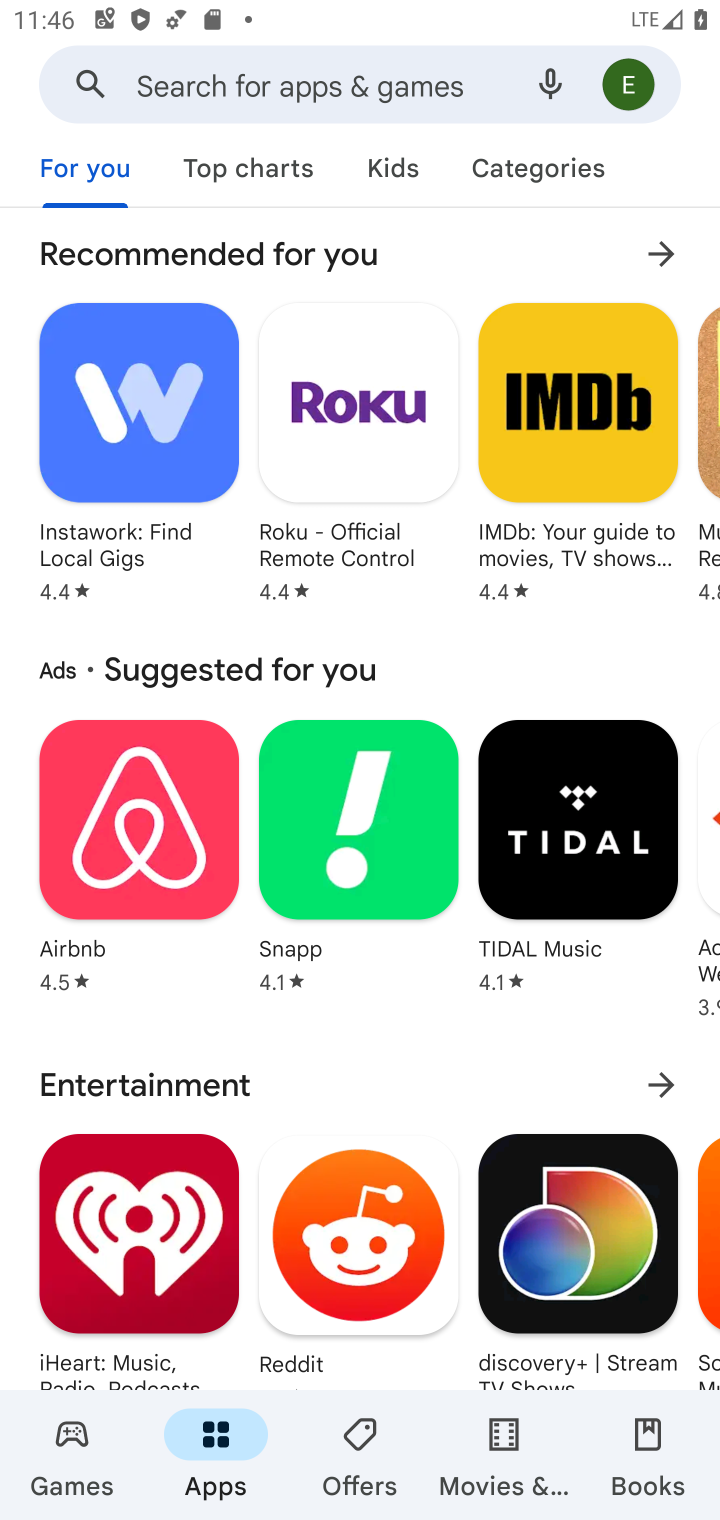
Step 31: click (223, 1437)
Your task to perform on an android device: Show me productivity apps on the Play Store Image 32: 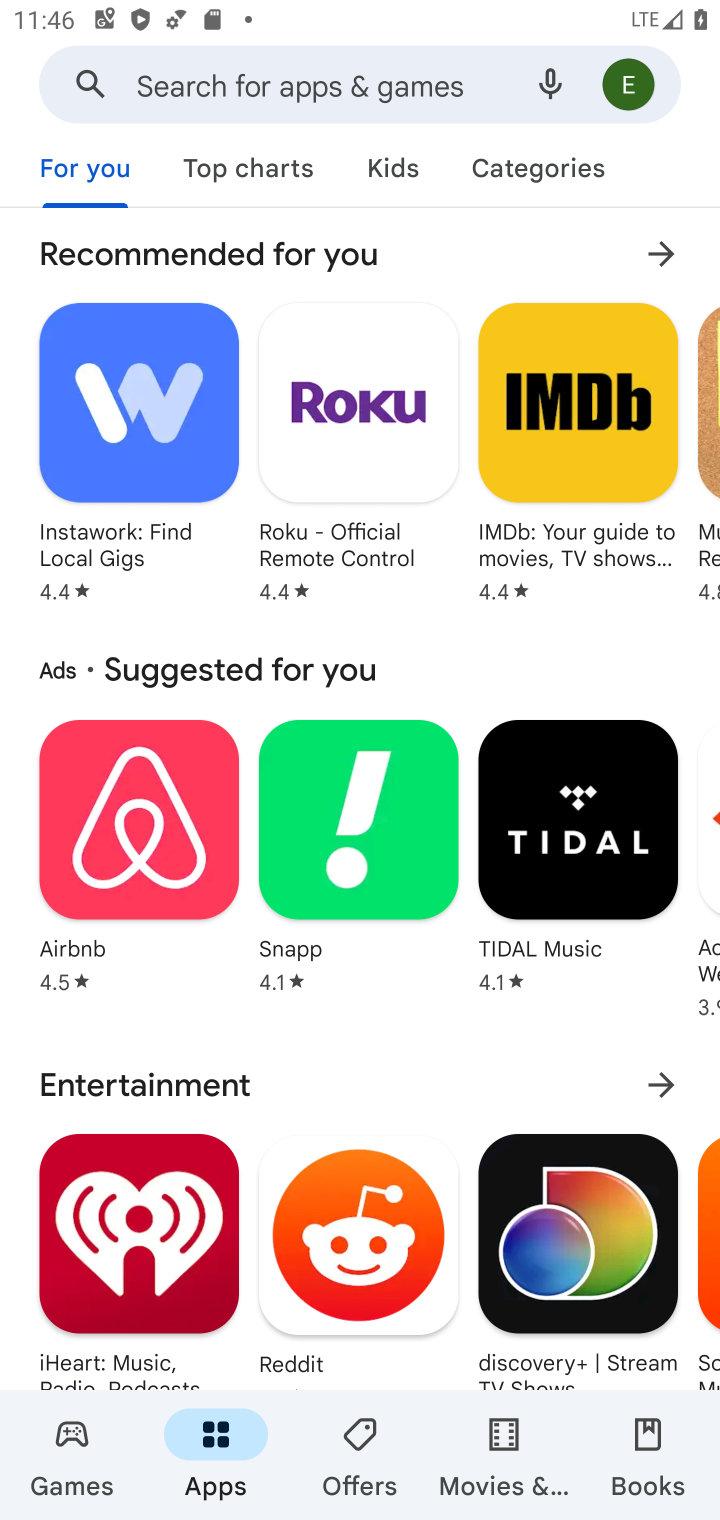
Step 32: task complete